Your task to perform on an android device: Open calendar and show me the third week of next month Image 0: 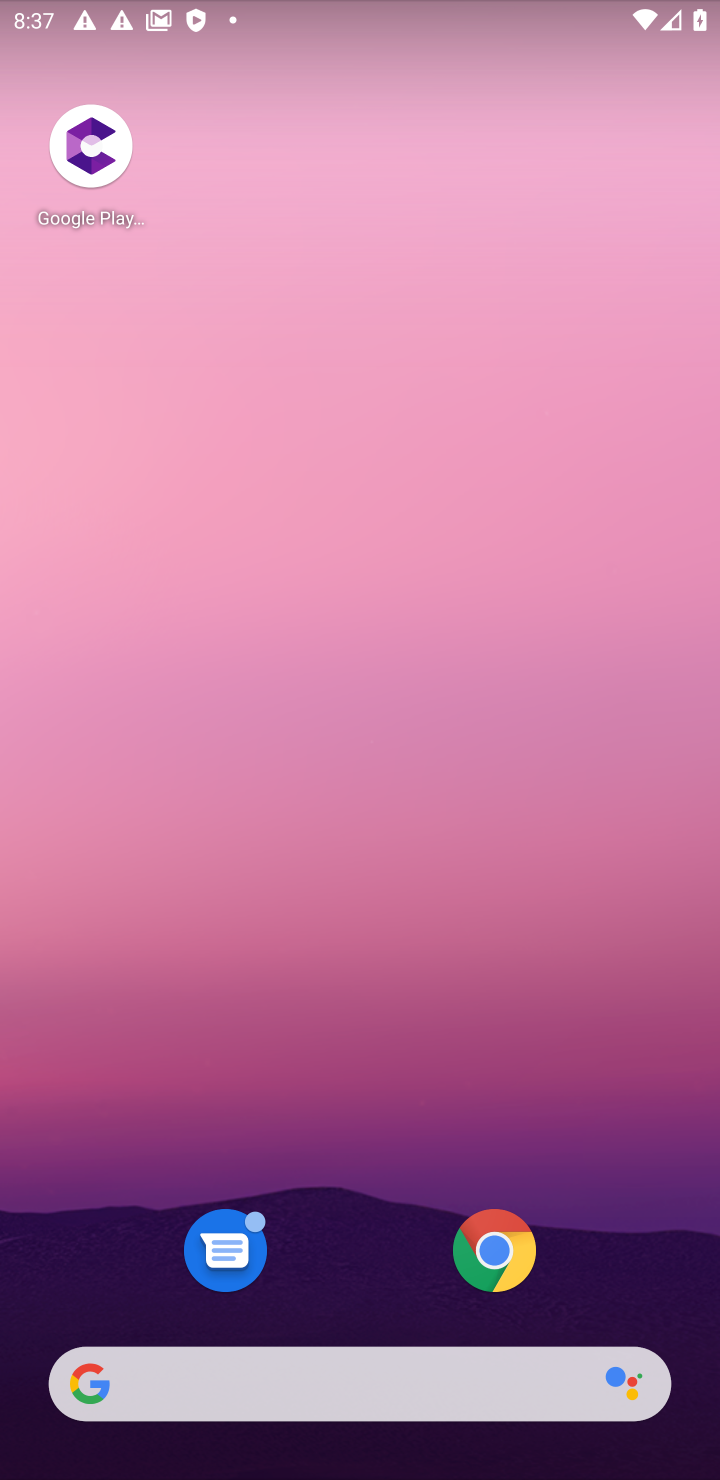
Step 0: drag from (288, 1269) to (228, 850)
Your task to perform on an android device: Open calendar and show me the third week of next month Image 1: 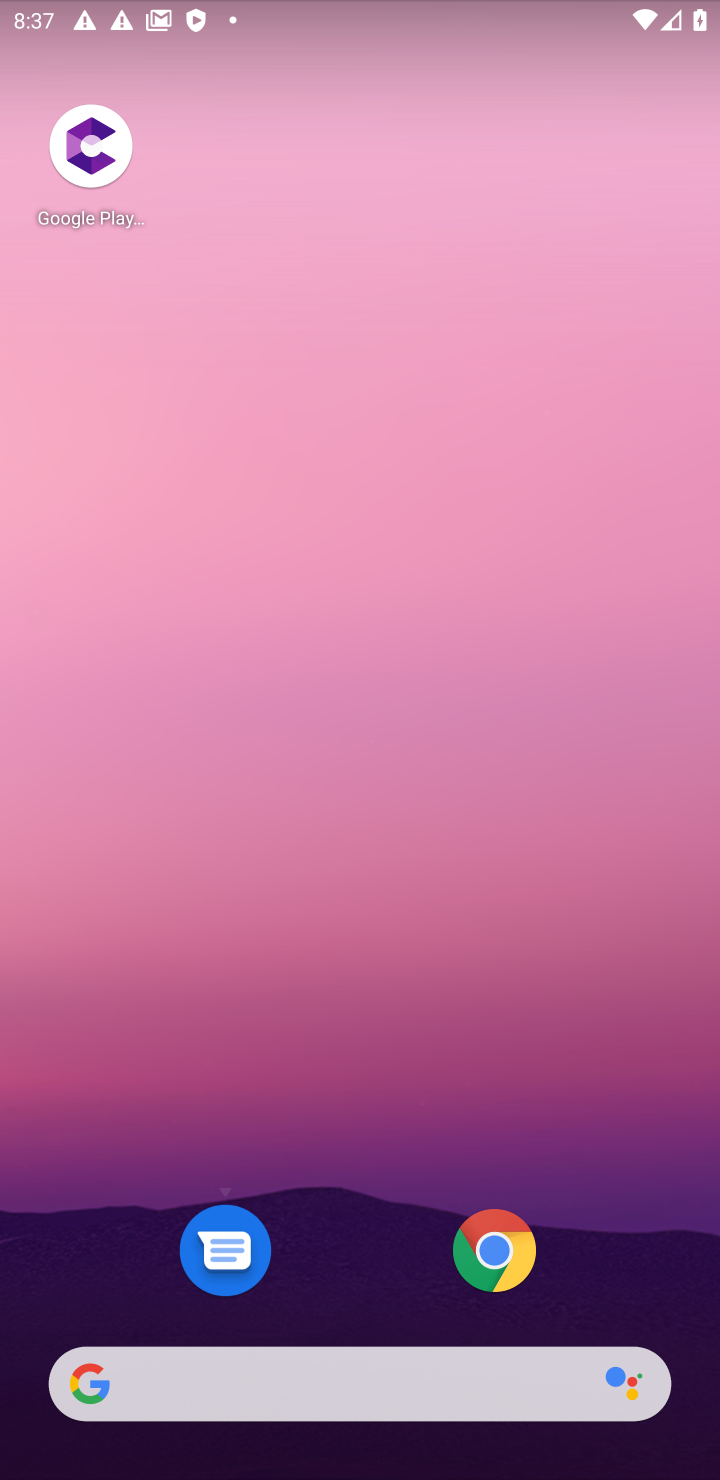
Step 1: click (358, 637)
Your task to perform on an android device: Open calendar and show me the third week of next month Image 2: 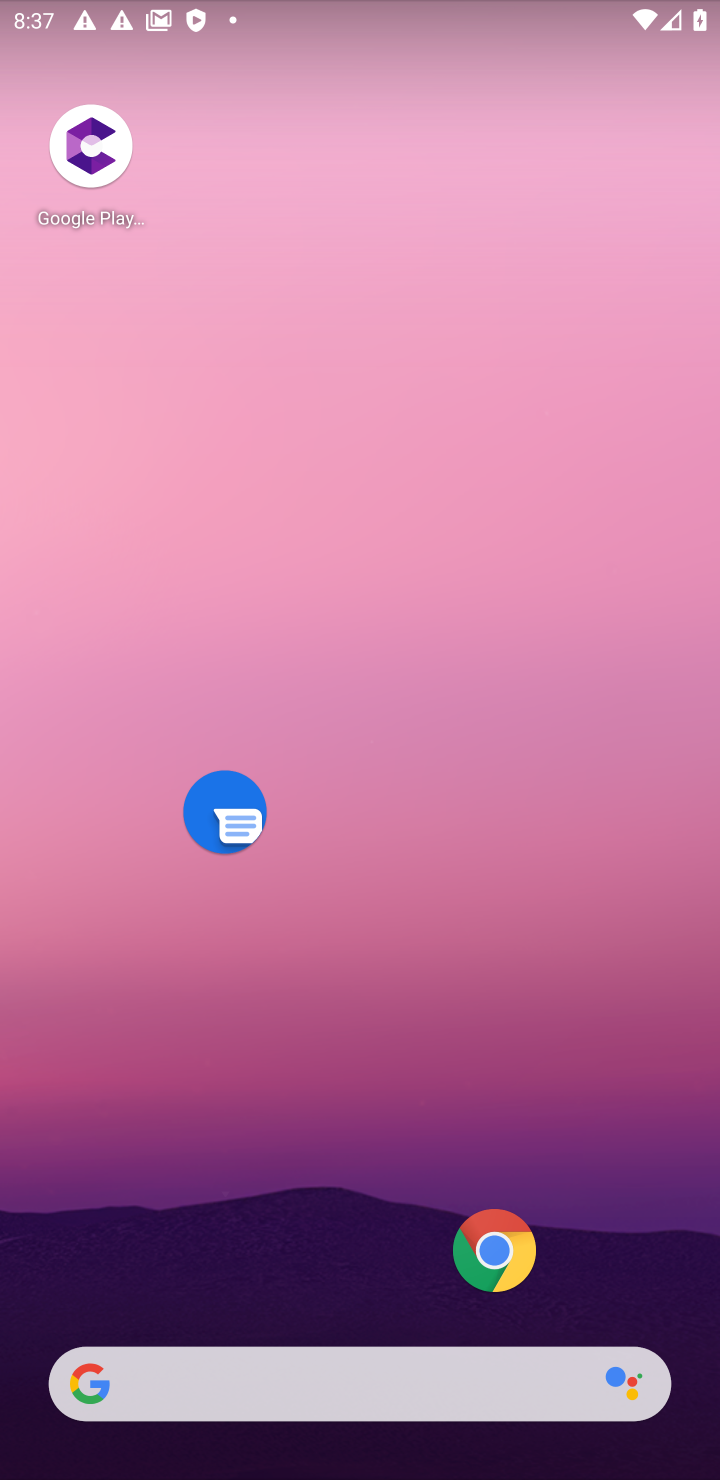
Step 2: click (348, 738)
Your task to perform on an android device: Open calendar and show me the third week of next month Image 3: 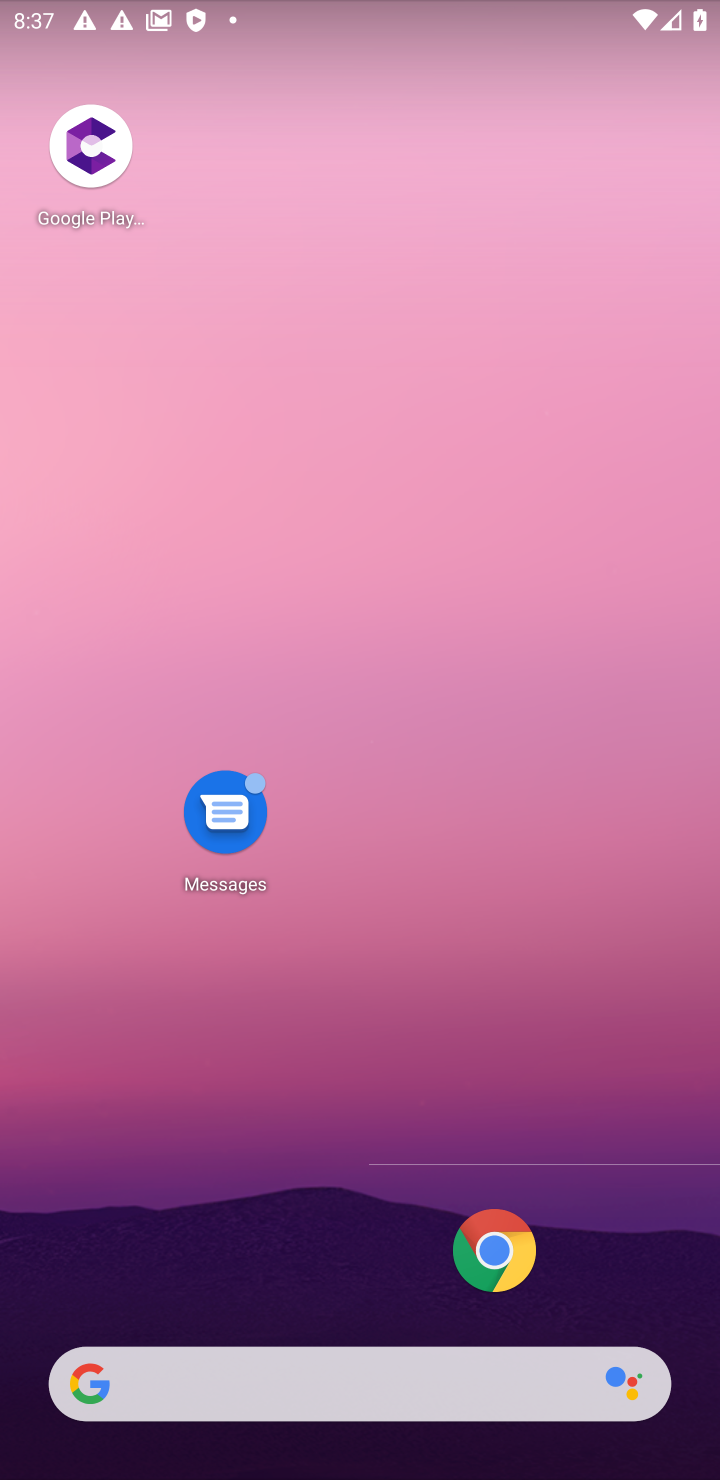
Step 3: click (332, 797)
Your task to perform on an android device: Open calendar and show me the third week of next month Image 4: 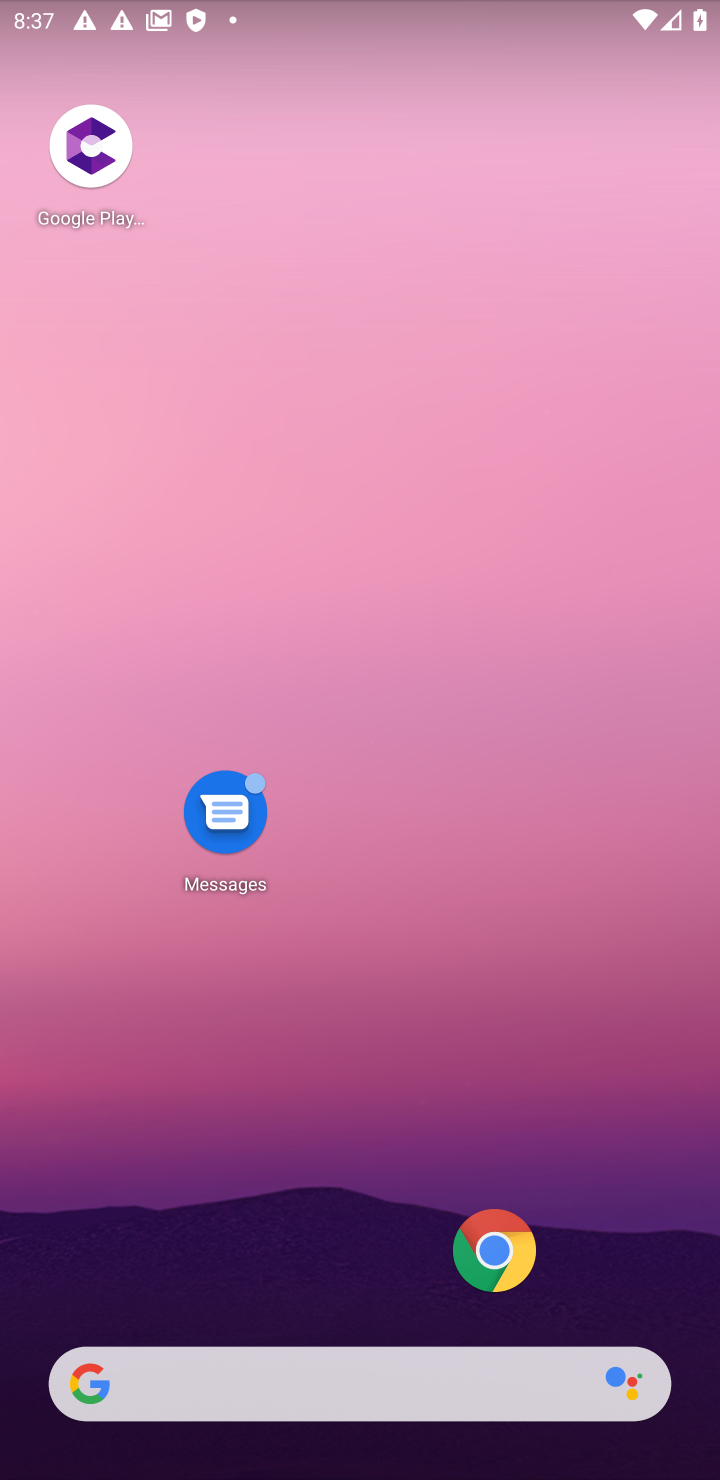
Step 4: click (209, 677)
Your task to perform on an android device: Open calendar and show me the third week of next month Image 5: 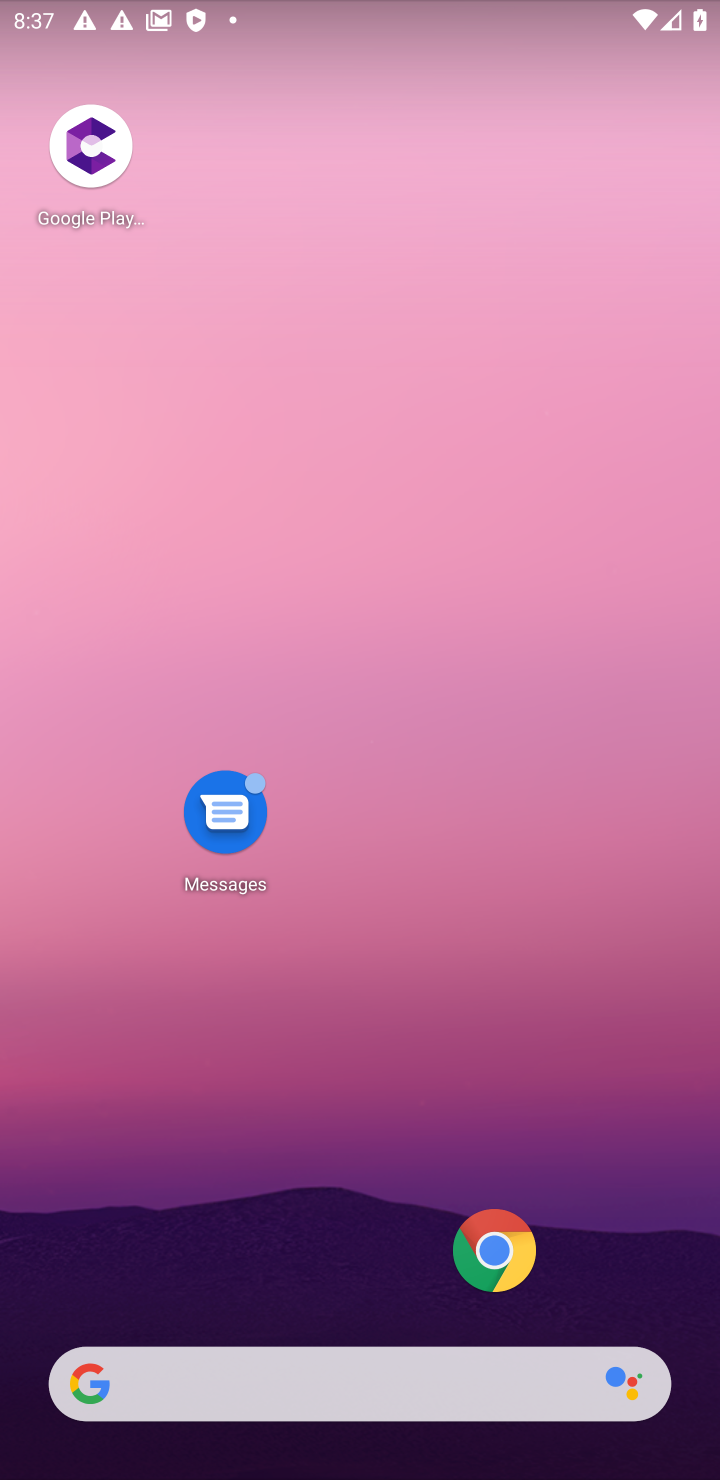
Step 5: drag from (303, 720) to (237, 667)
Your task to perform on an android device: Open calendar and show me the third week of next month Image 6: 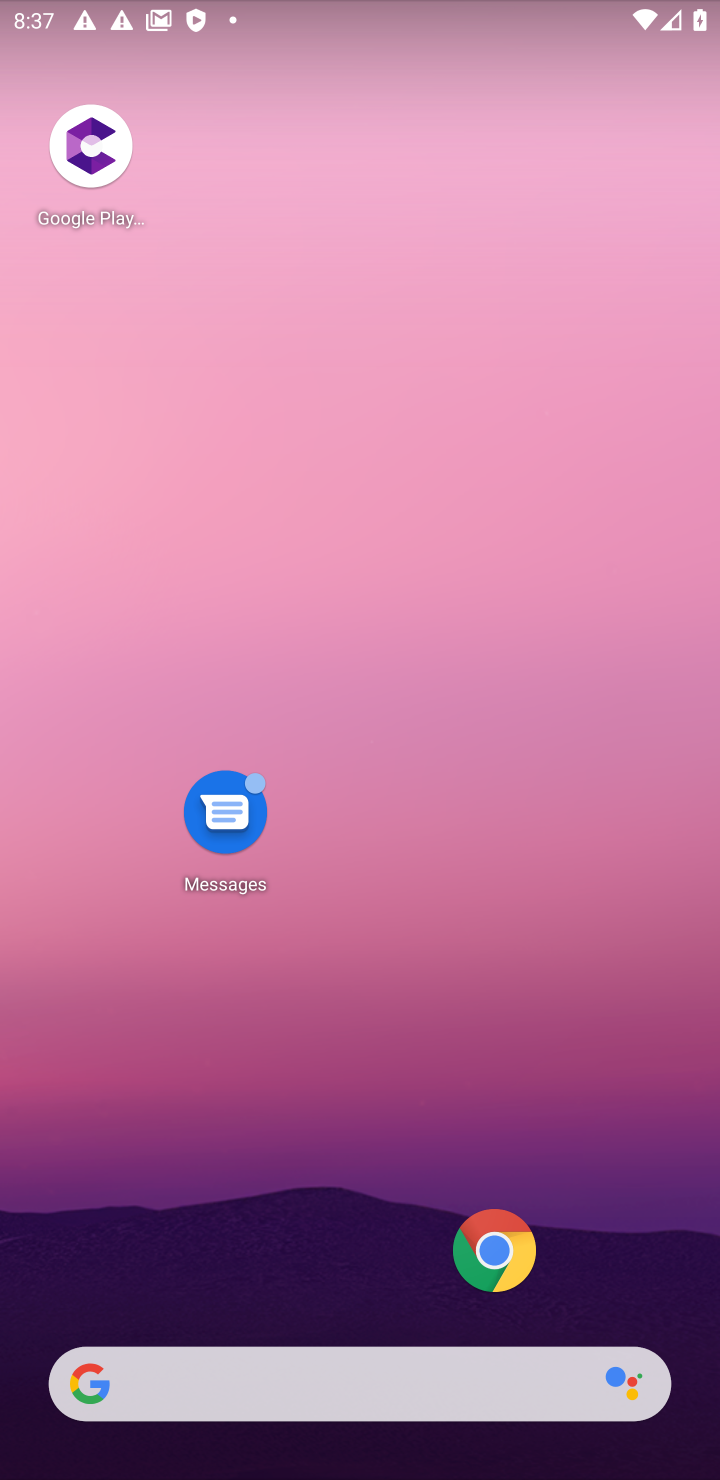
Step 6: click (224, 322)
Your task to perform on an android device: Open calendar and show me the third week of next month Image 7: 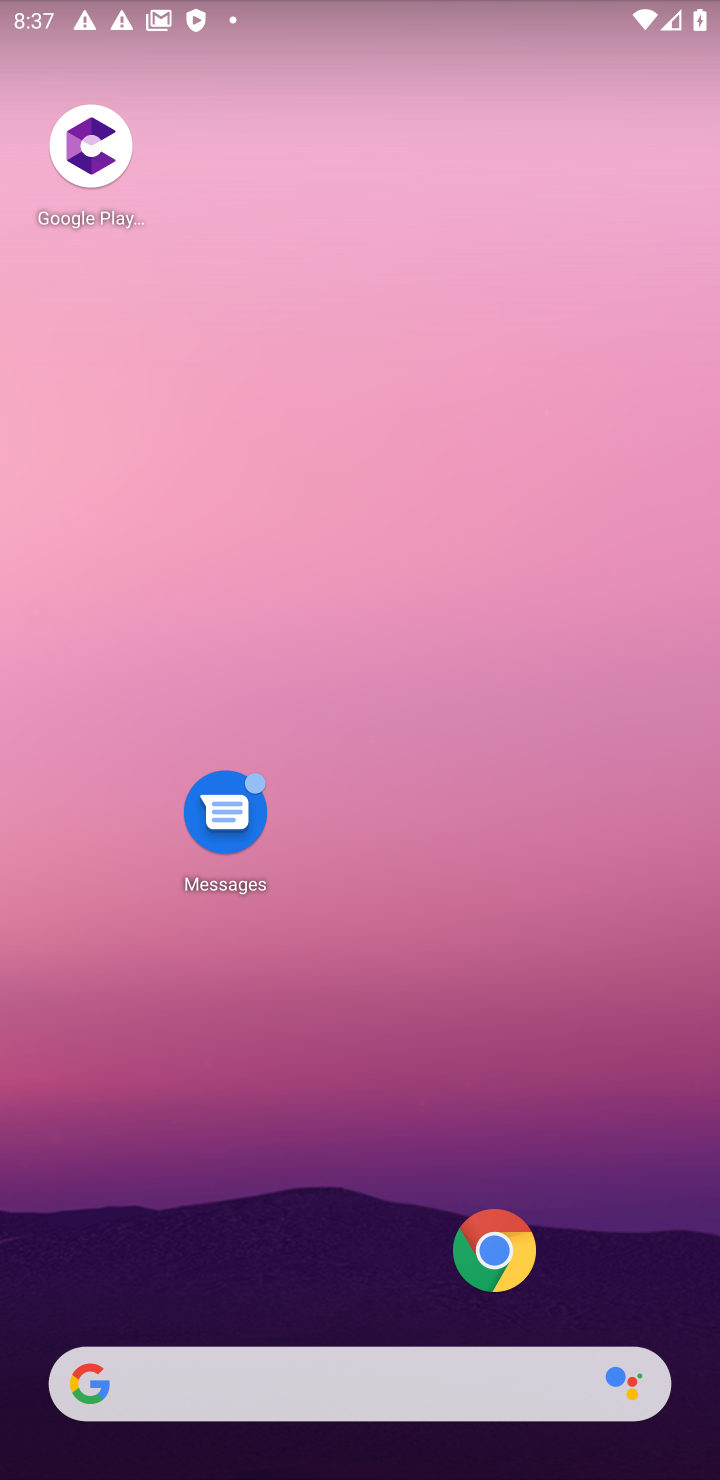
Step 7: drag from (404, 962) to (363, 514)
Your task to perform on an android device: Open calendar and show me the third week of next month Image 8: 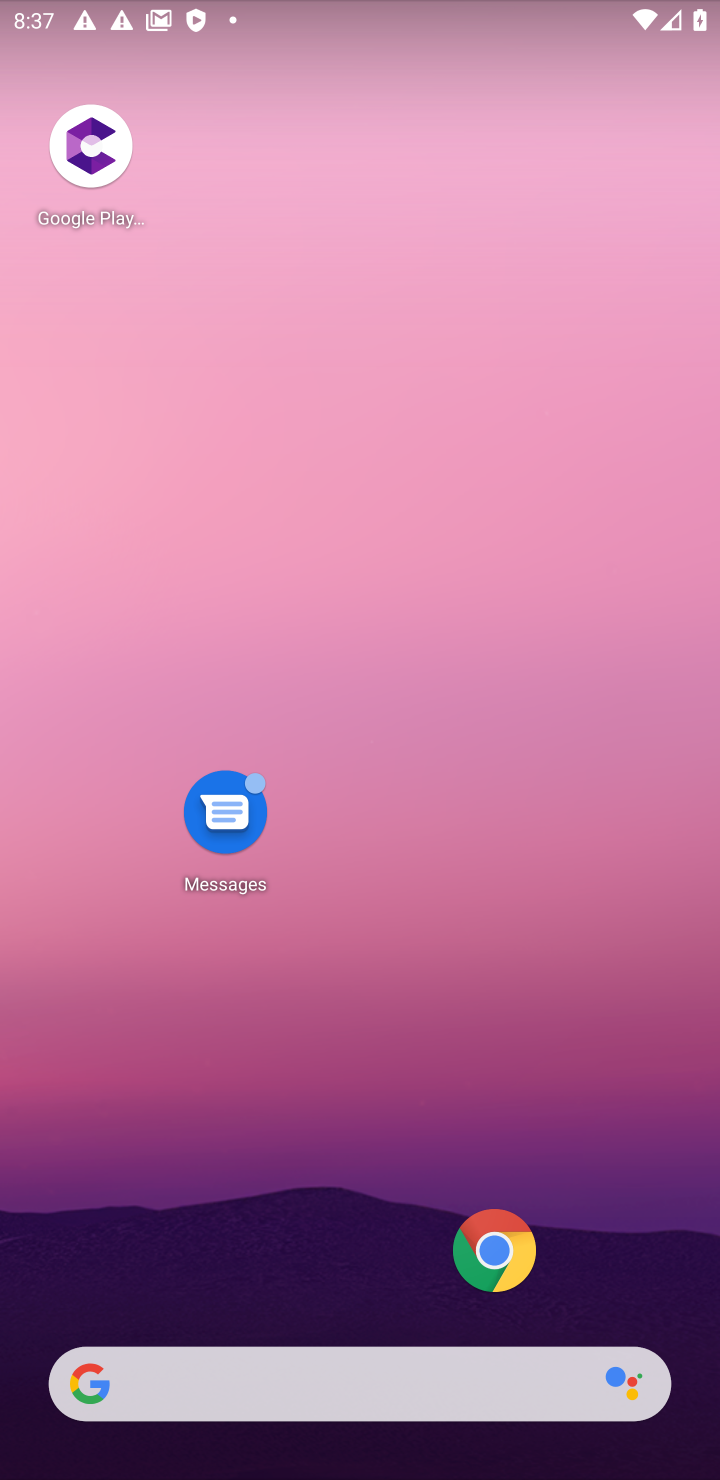
Step 8: drag from (309, 1232) to (237, 384)
Your task to perform on an android device: Open calendar and show me the third week of next month Image 9: 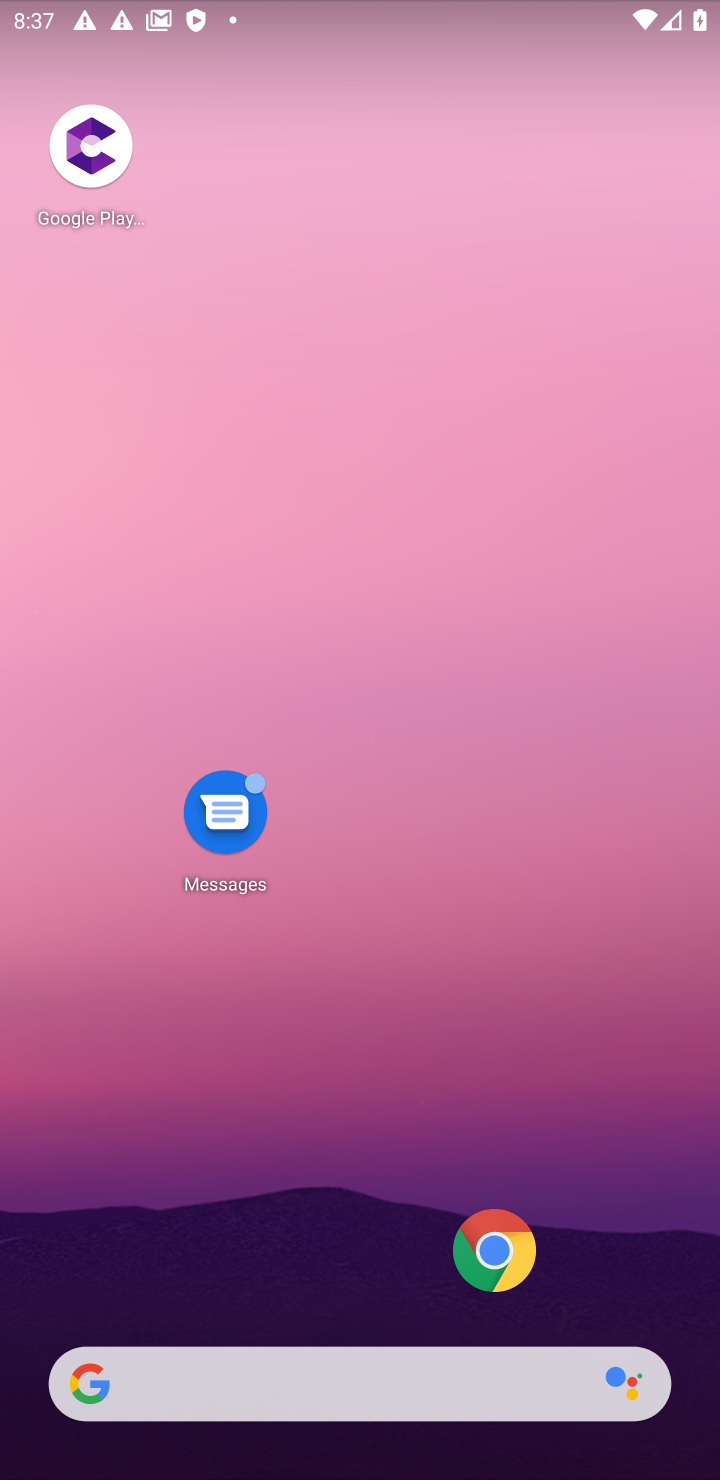
Step 9: drag from (267, 395) to (271, 755)
Your task to perform on an android device: Open calendar and show me the third week of next month Image 10: 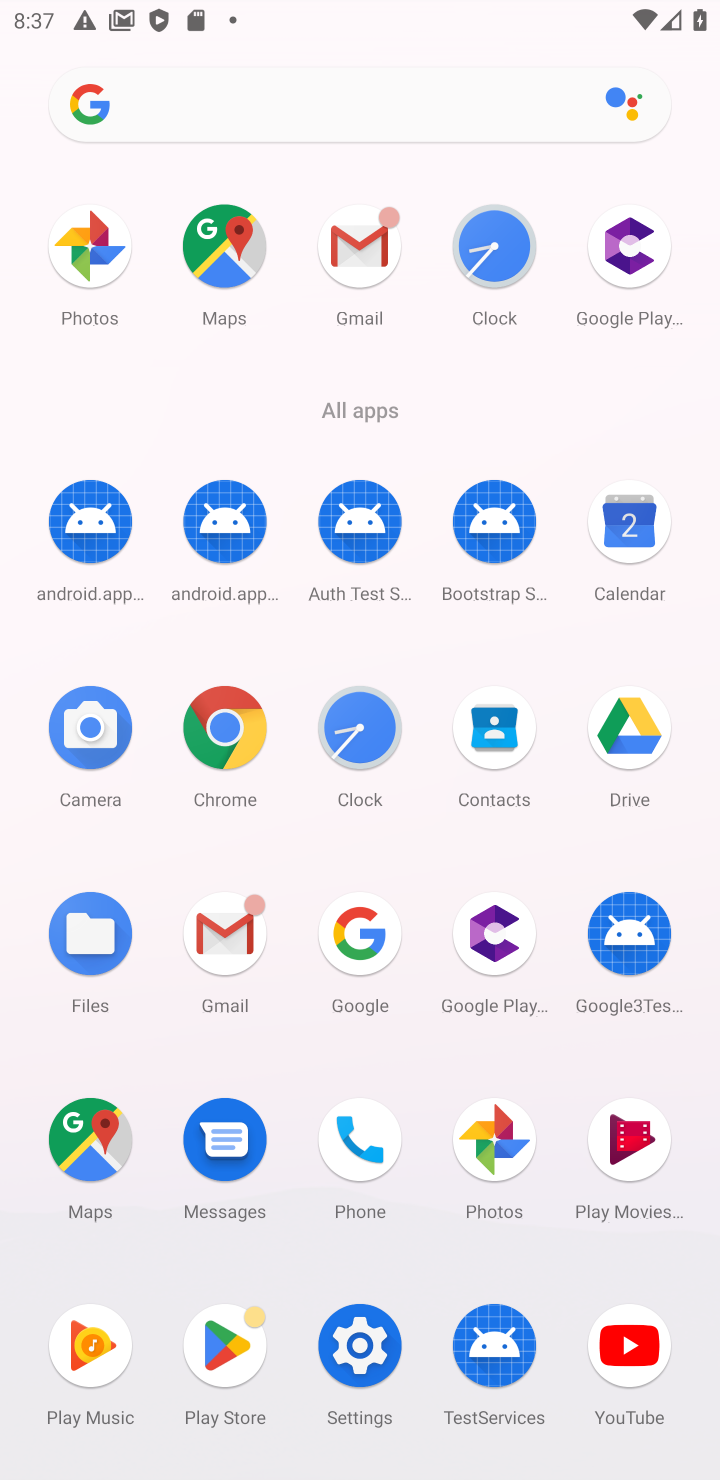
Step 10: click (242, 1331)
Your task to perform on an android device: Open calendar and show me the third week of next month Image 11: 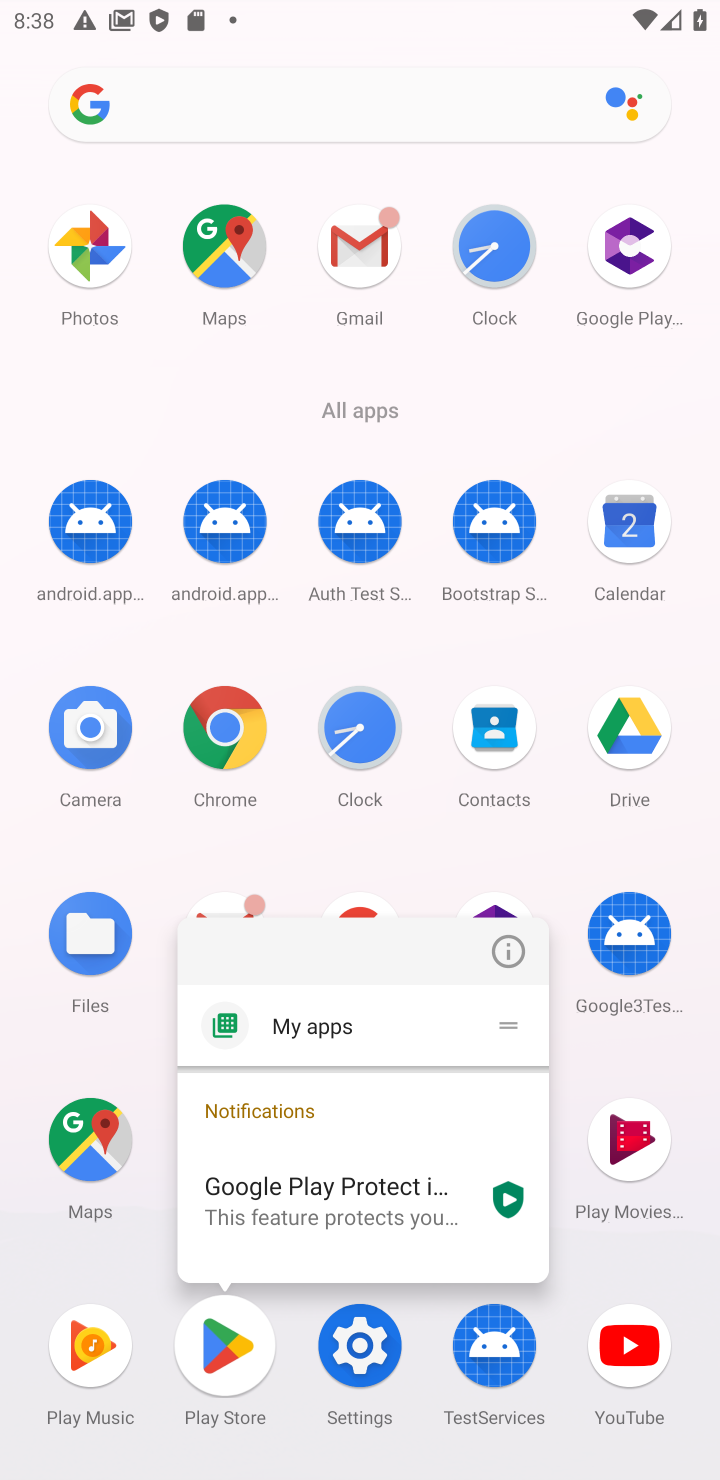
Step 11: click (247, 1331)
Your task to perform on an android device: Open calendar and show me the third week of next month Image 12: 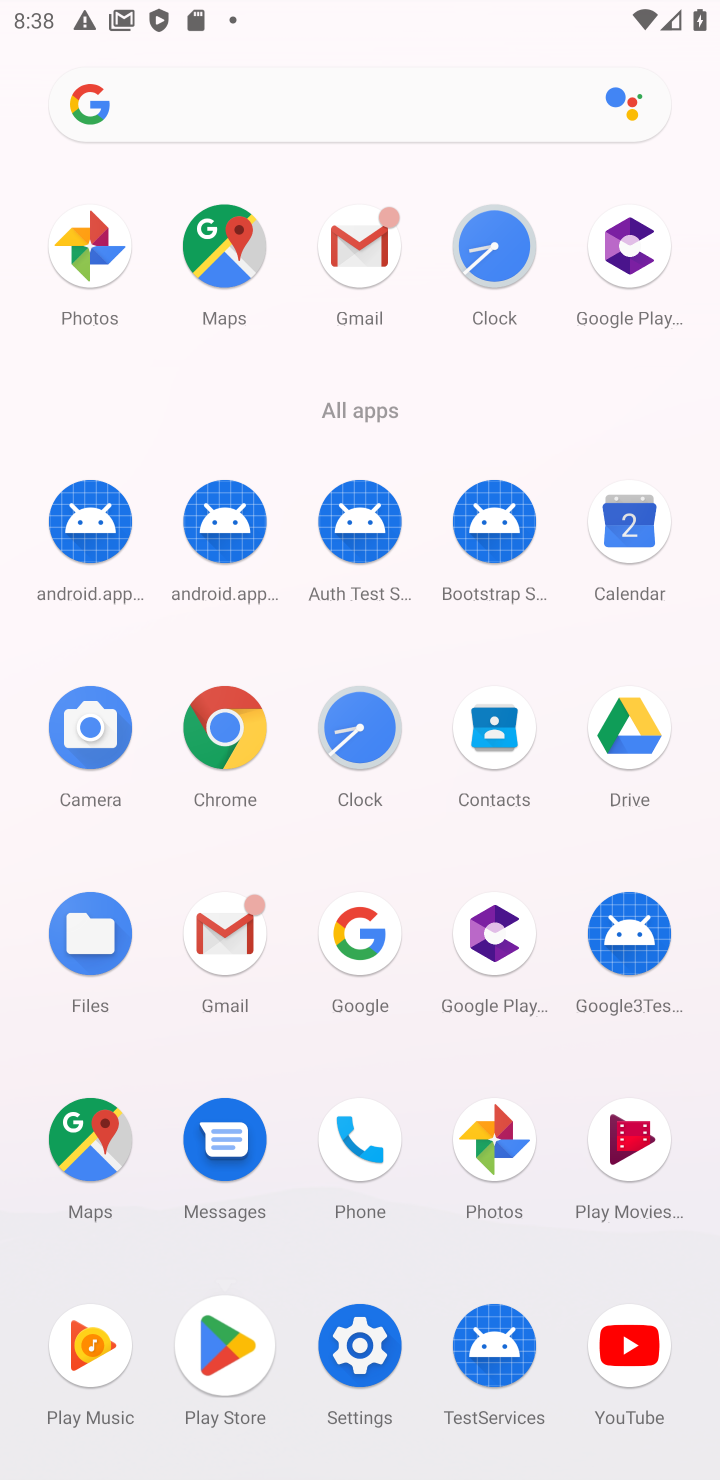
Step 12: click (244, 1324)
Your task to perform on an android device: Open calendar and show me the third week of next month Image 13: 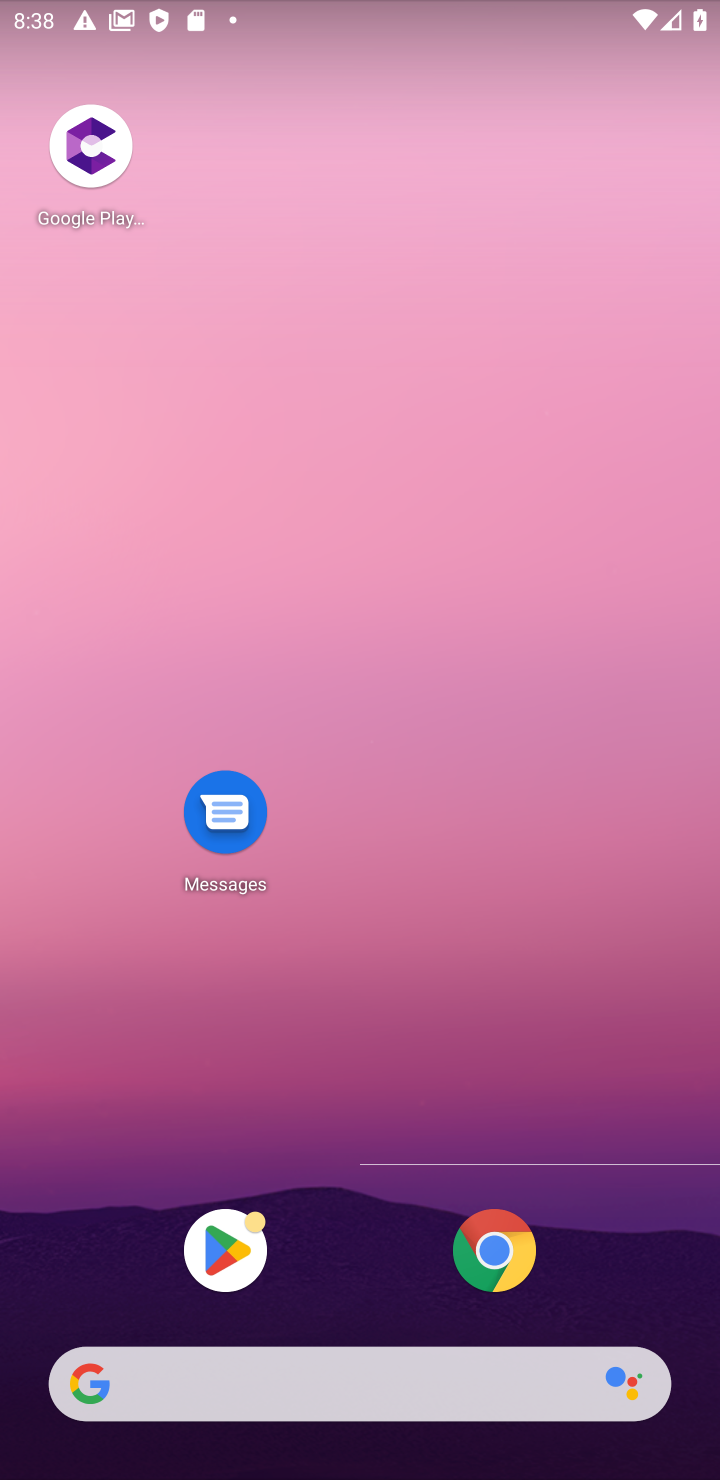
Step 13: click (219, 1252)
Your task to perform on an android device: Open calendar and show me the third week of next month Image 14: 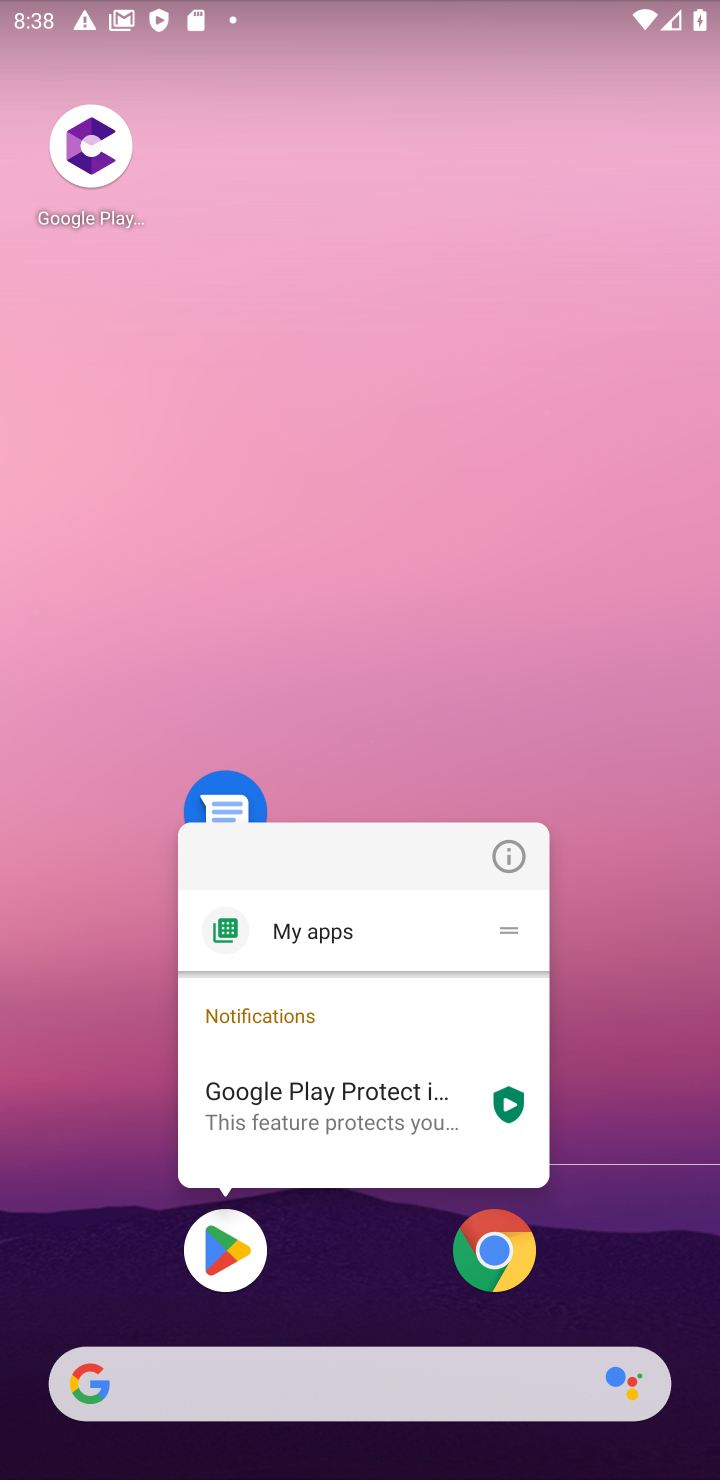
Step 14: click (342, 914)
Your task to perform on an android device: Open calendar and show me the third week of next month Image 15: 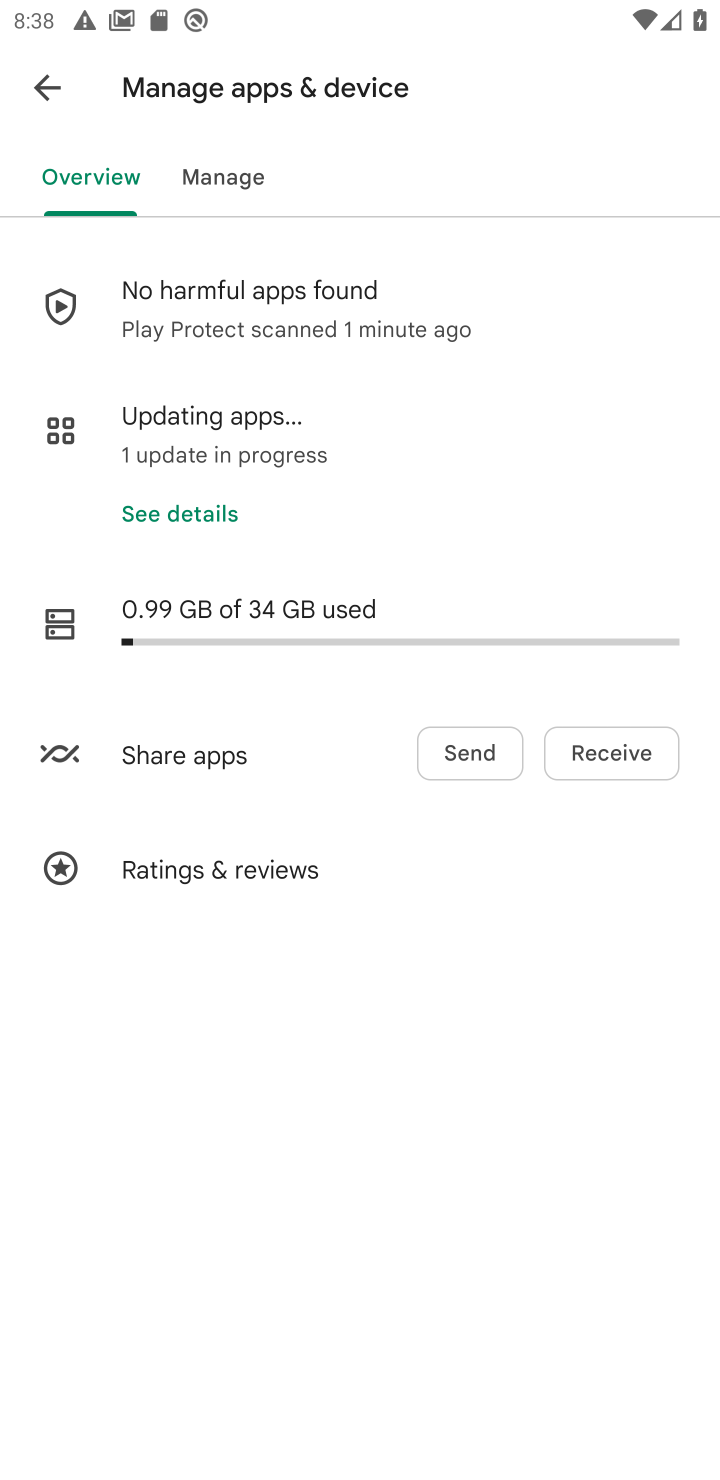
Step 15: click (39, 71)
Your task to perform on an android device: Open calendar and show me the third week of next month Image 16: 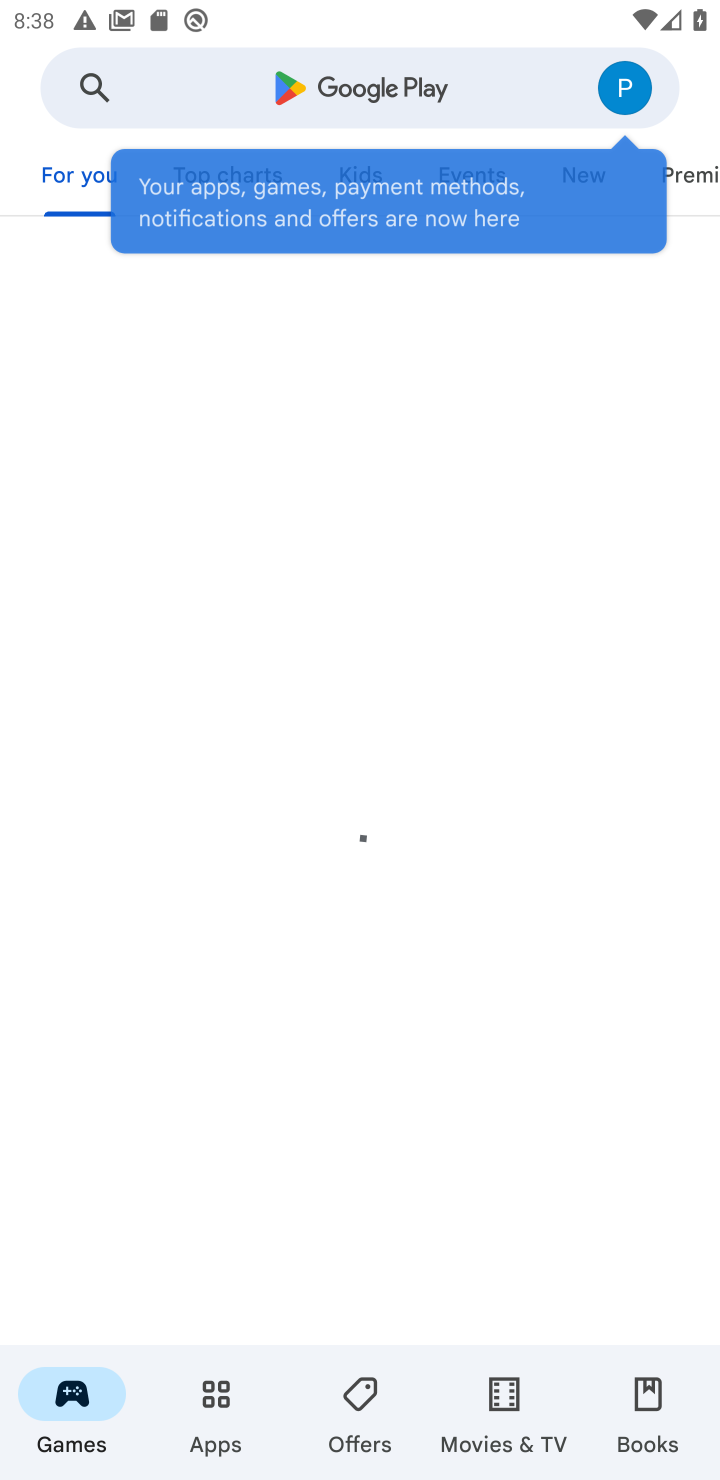
Step 16: click (432, 84)
Your task to perform on an android device: Open calendar and show me the third week of next month Image 17: 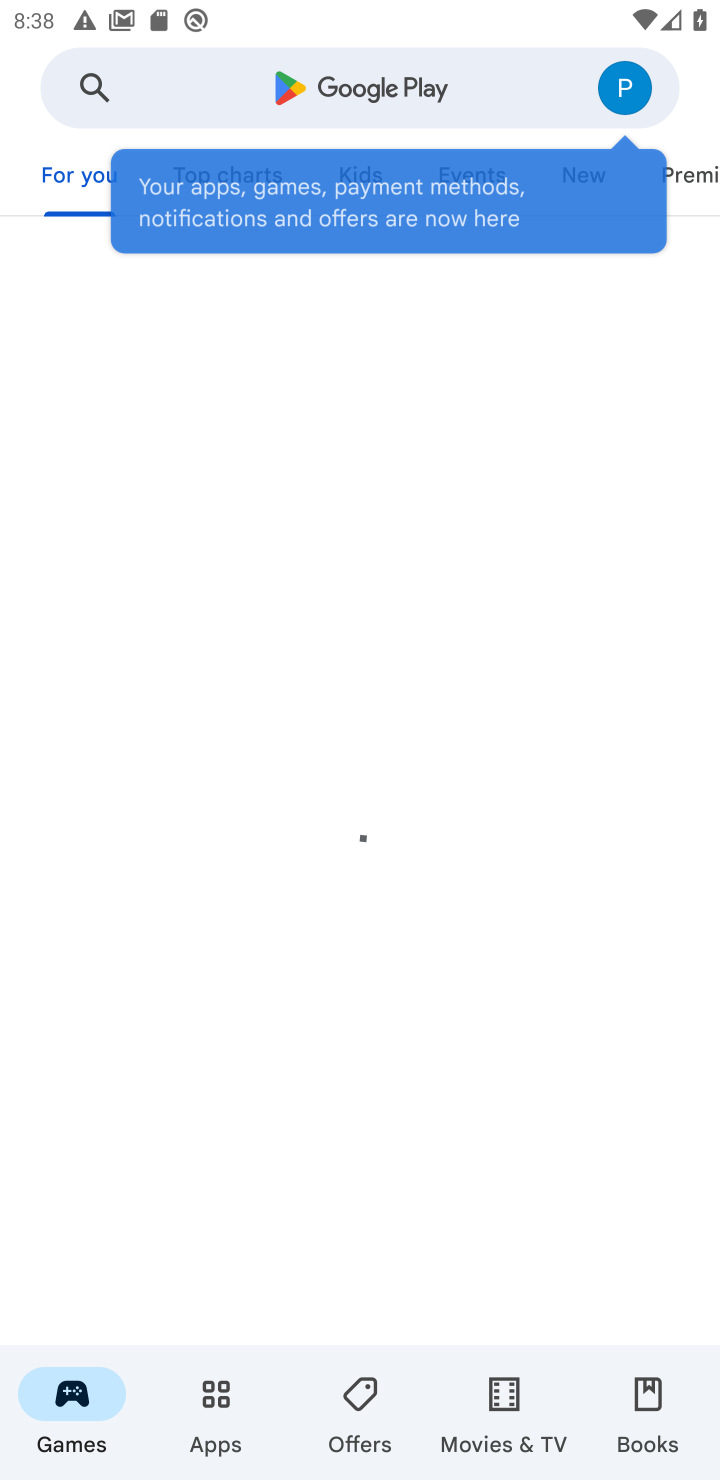
Step 17: click (432, 84)
Your task to perform on an android device: Open calendar and show me the third week of next month Image 18: 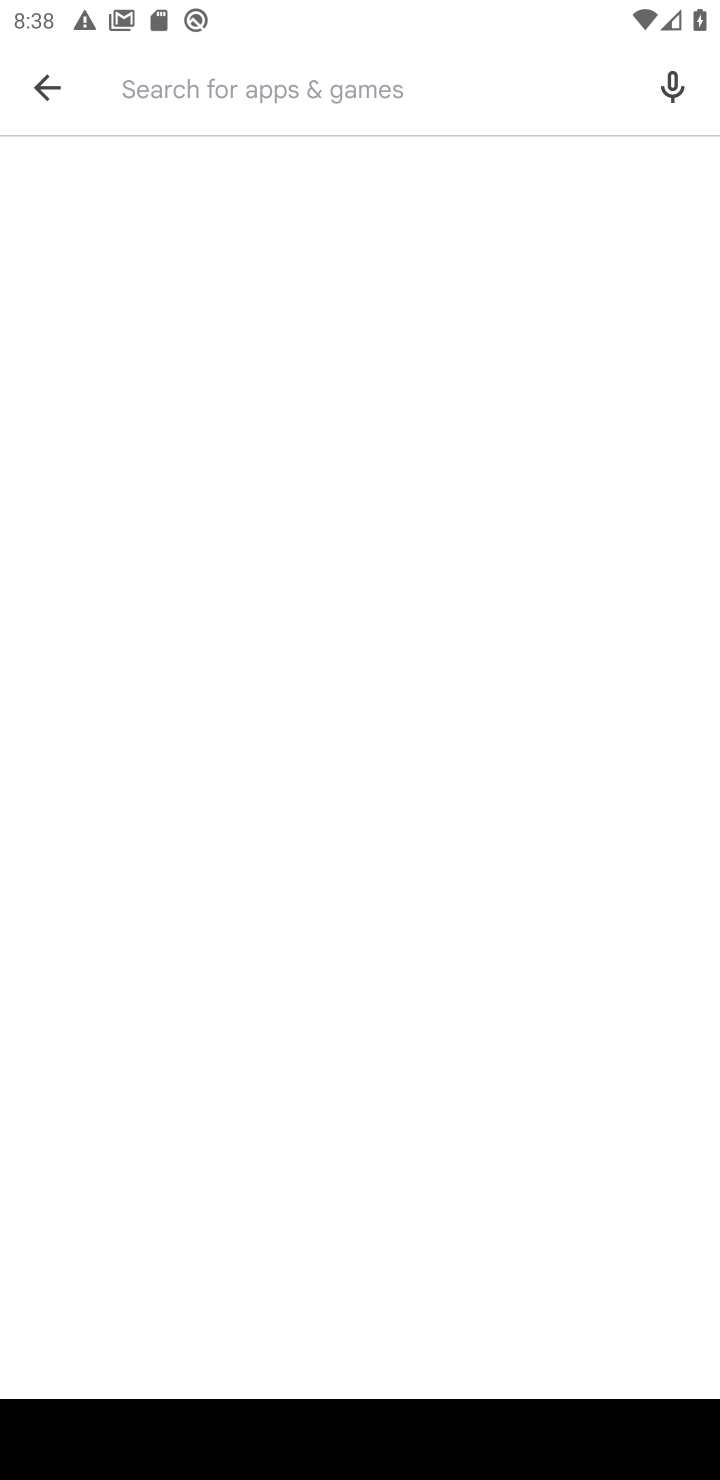
Step 18: type "calender"
Your task to perform on an android device: Open calendar and show me the third week of next month Image 19: 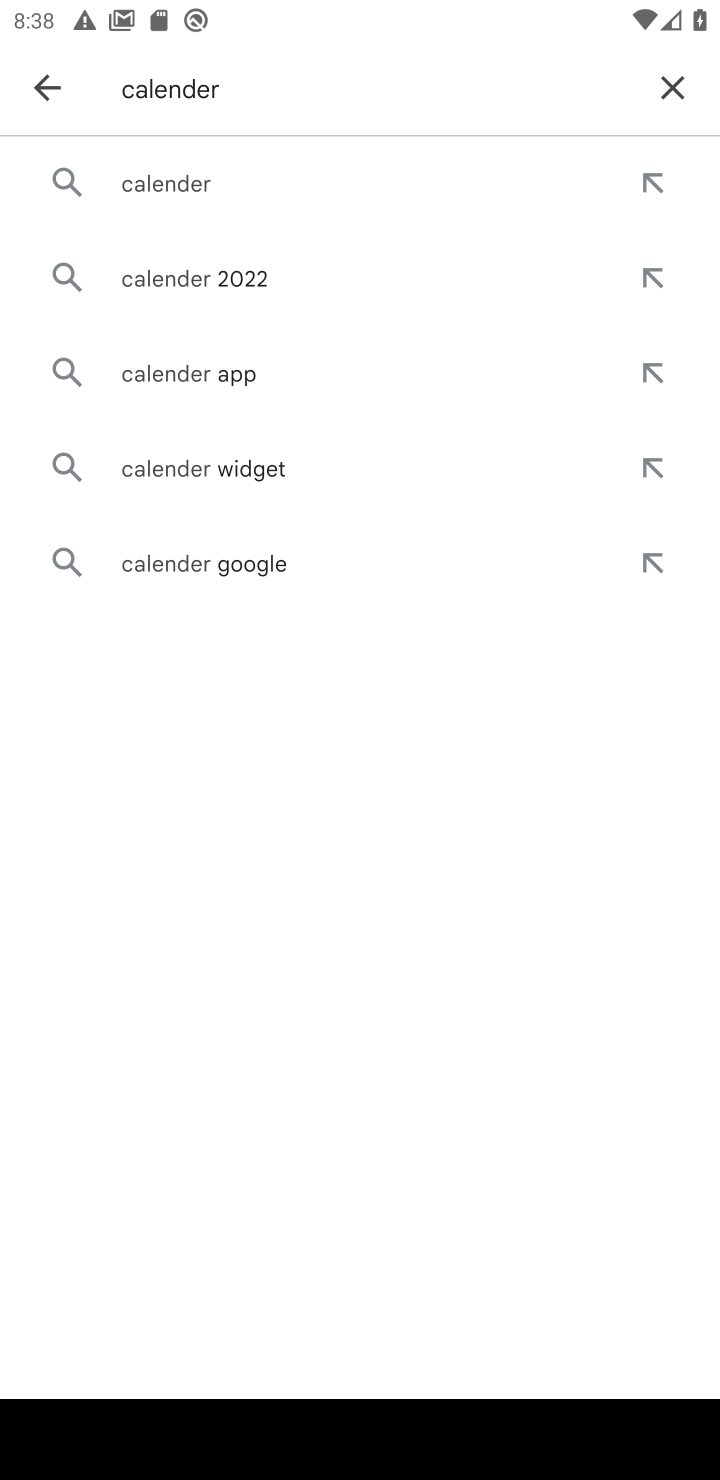
Step 19: click (196, 184)
Your task to perform on an android device: Open calendar and show me the third week of next month Image 20: 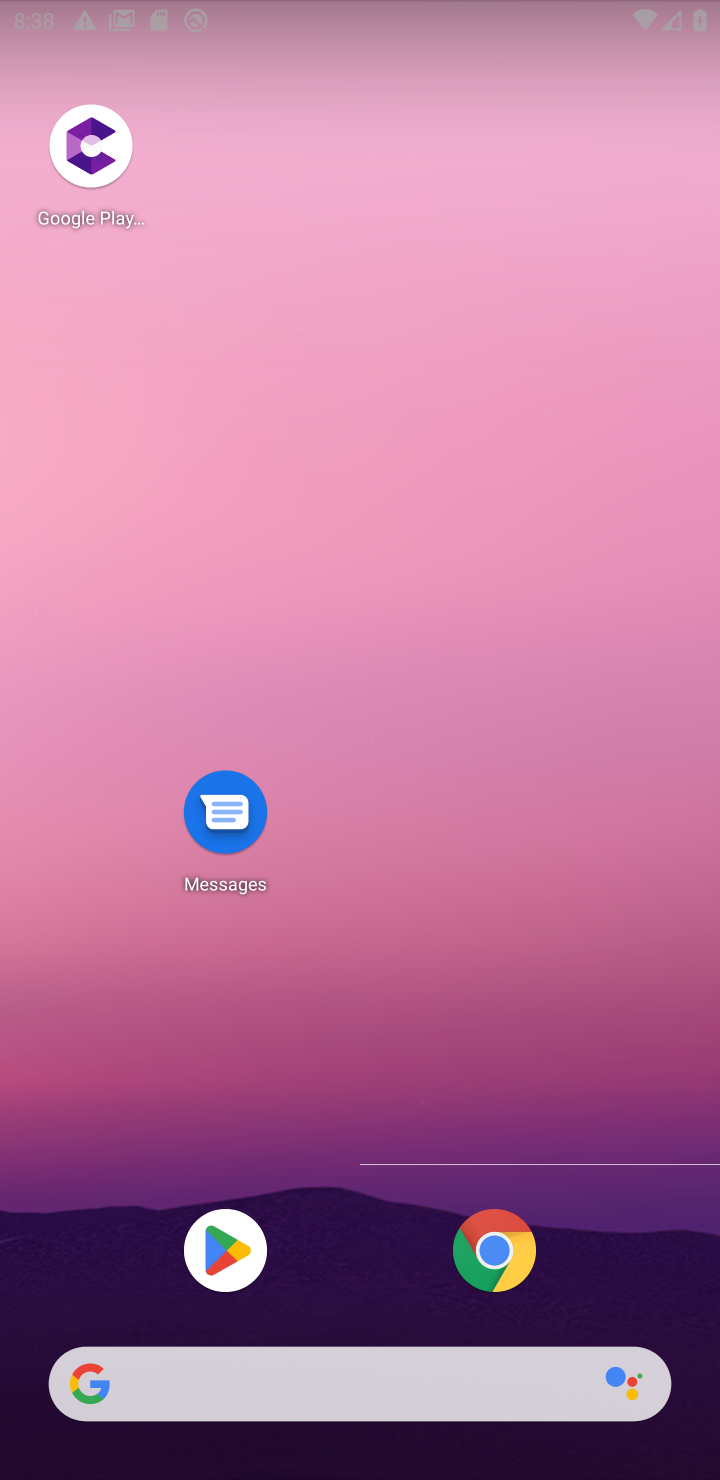
Step 20: drag from (317, 1264) to (257, 234)
Your task to perform on an android device: Open calendar and show me the third week of next month Image 21: 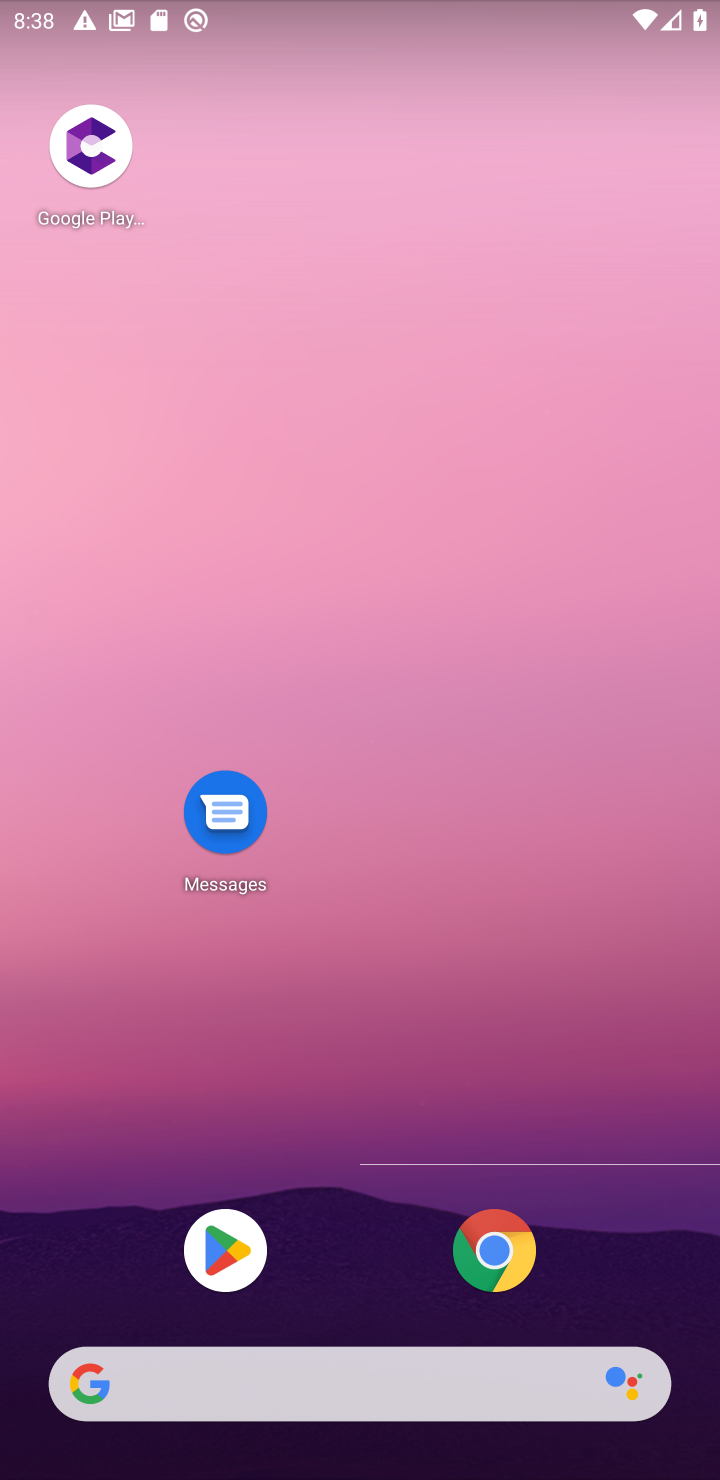
Step 21: drag from (258, 916) to (176, 78)
Your task to perform on an android device: Open calendar and show me the third week of next month Image 22: 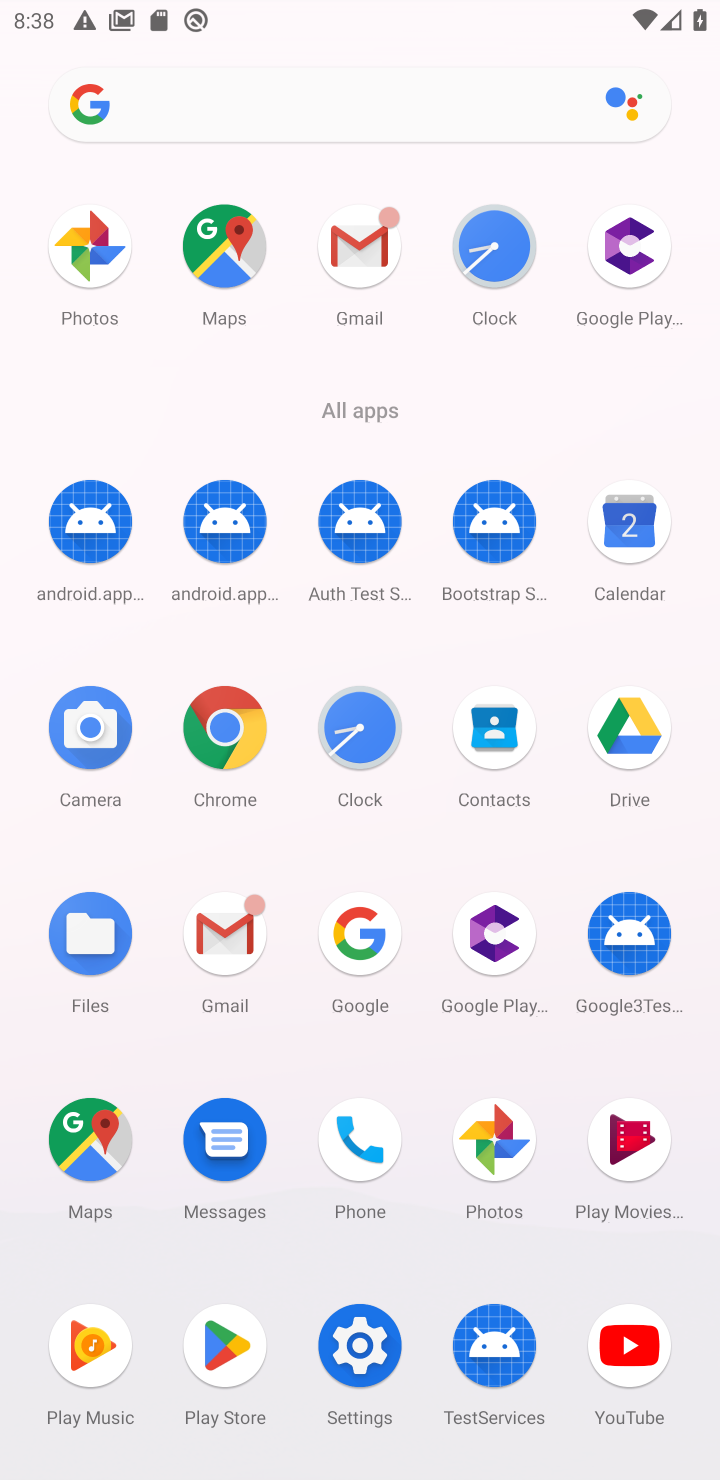
Step 22: click (634, 537)
Your task to perform on an android device: Open calendar and show me the third week of next month Image 23: 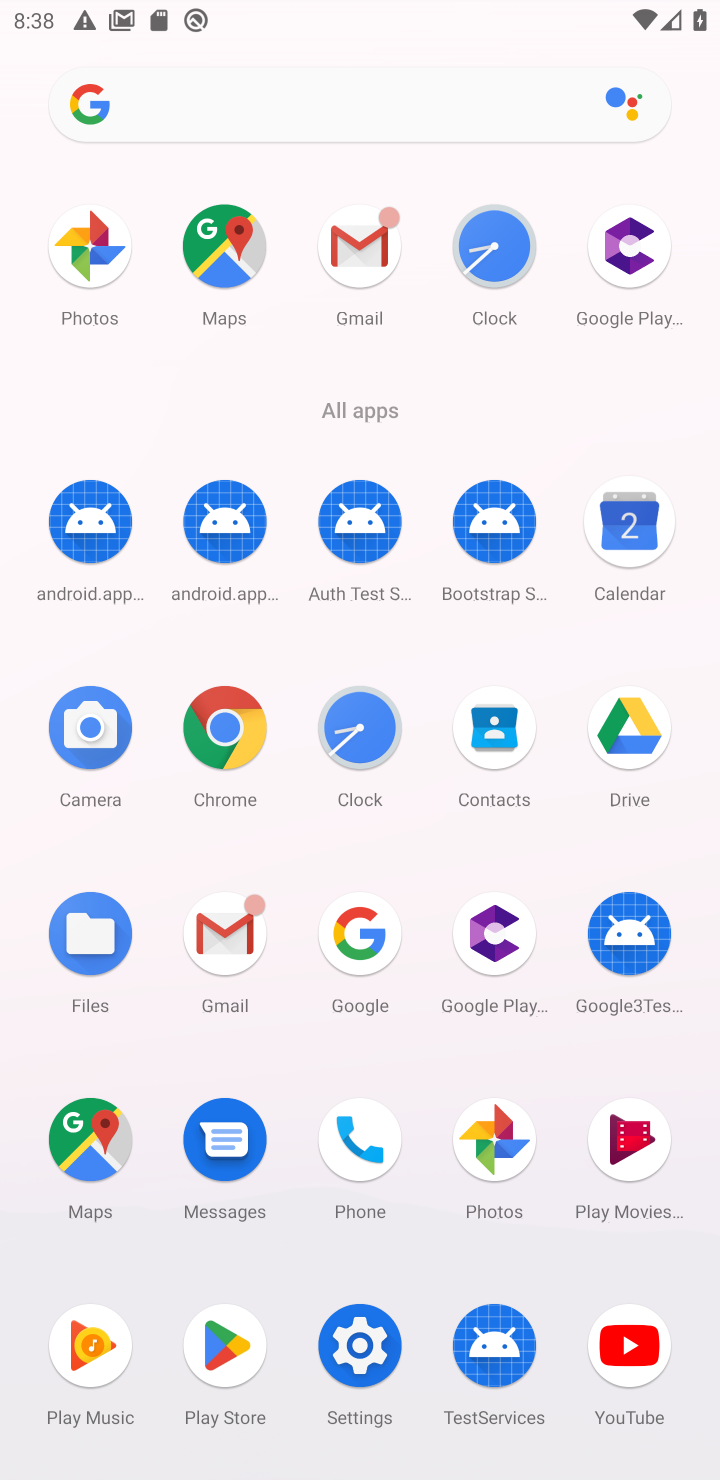
Step 23: click (634, 523)
Your task to perform on an android device: Open calendar and show me the third week of next month Image 24: 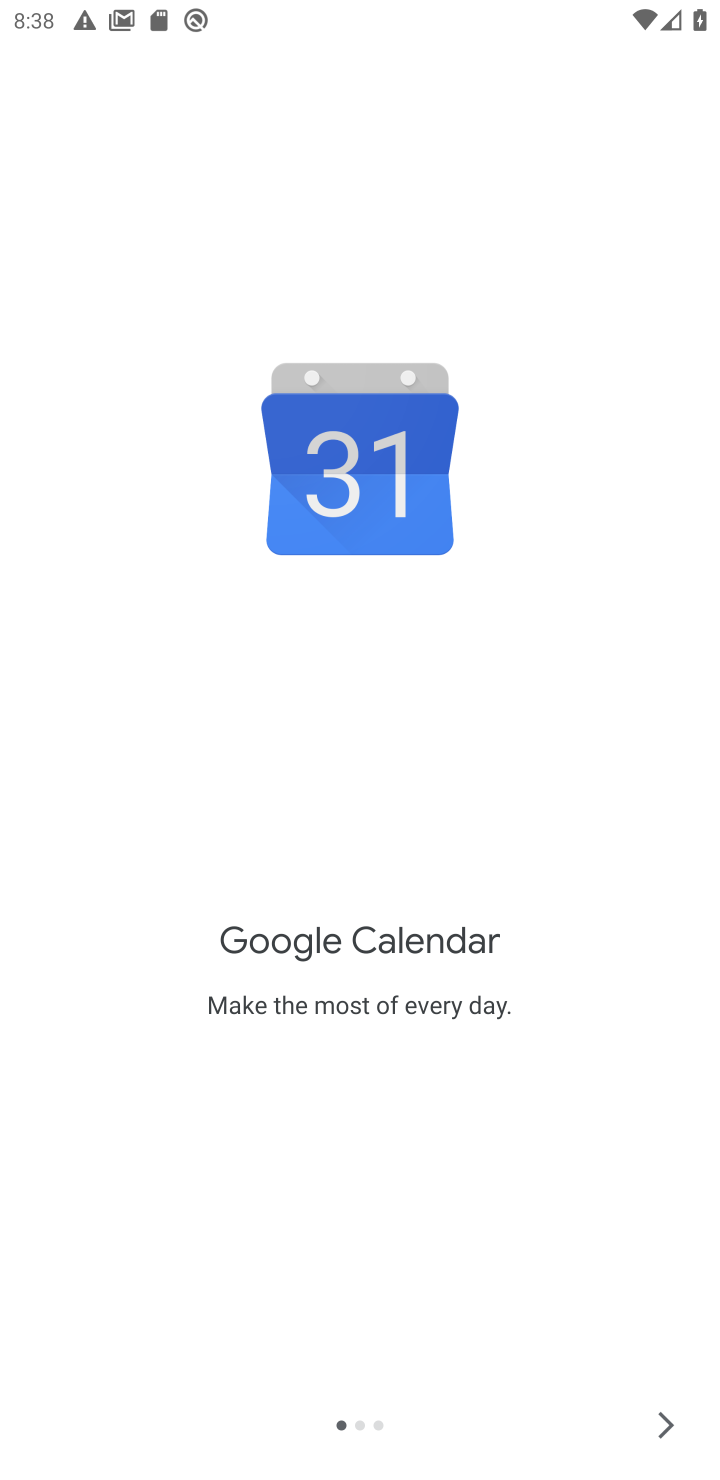
Step 24: click (632, 527)
Your task to perform on an android device: Open calendar and show me the third week of next month Image 25: 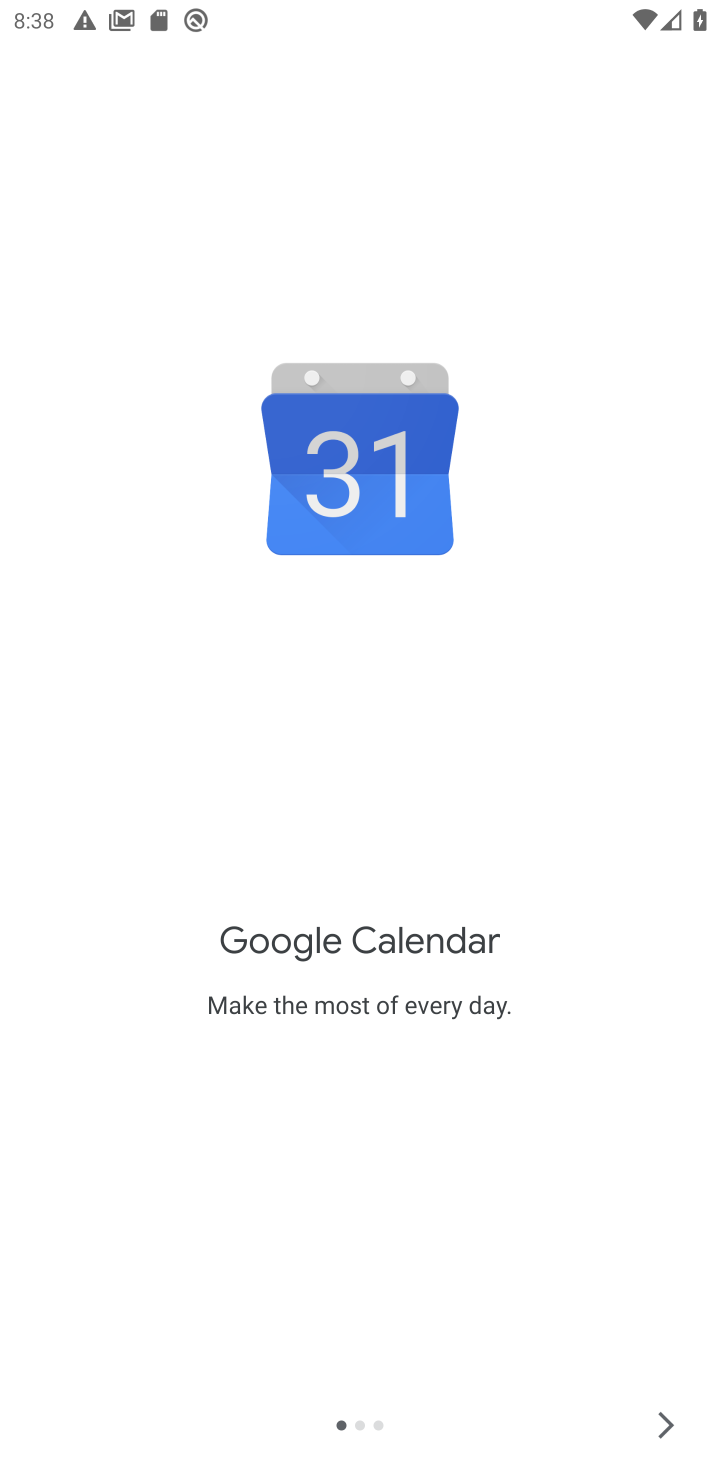
Step 25: click (632, 529)
Your task to perform on an android device: Open calendar and show me the third week of next month Image 26: 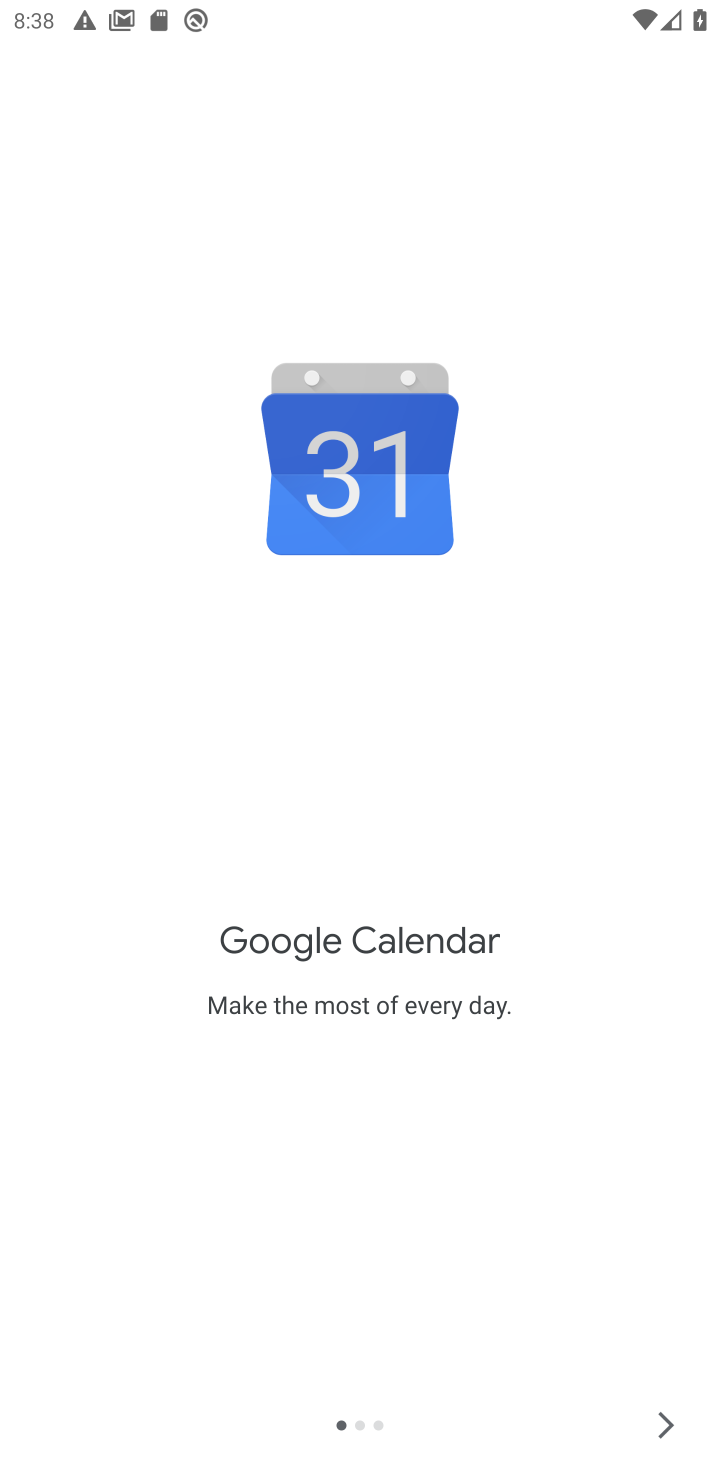
Step 26: click (666, 1418)
Your task to perform on an android device: Open calendar and show me the third week of next month Image 27: 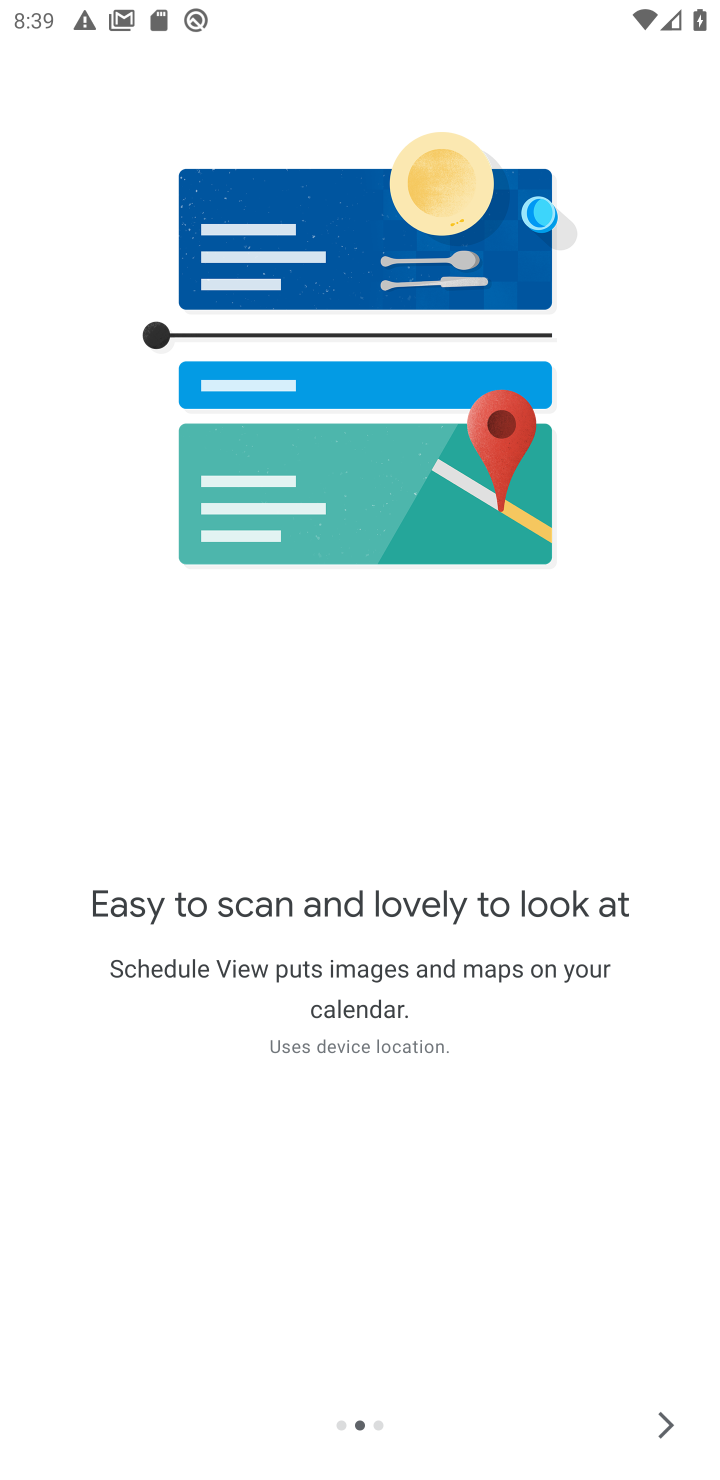
Step 27: click (665, 1419)
Your task to perform on an android device: Open calendar and show me the third week of next month Image 28: 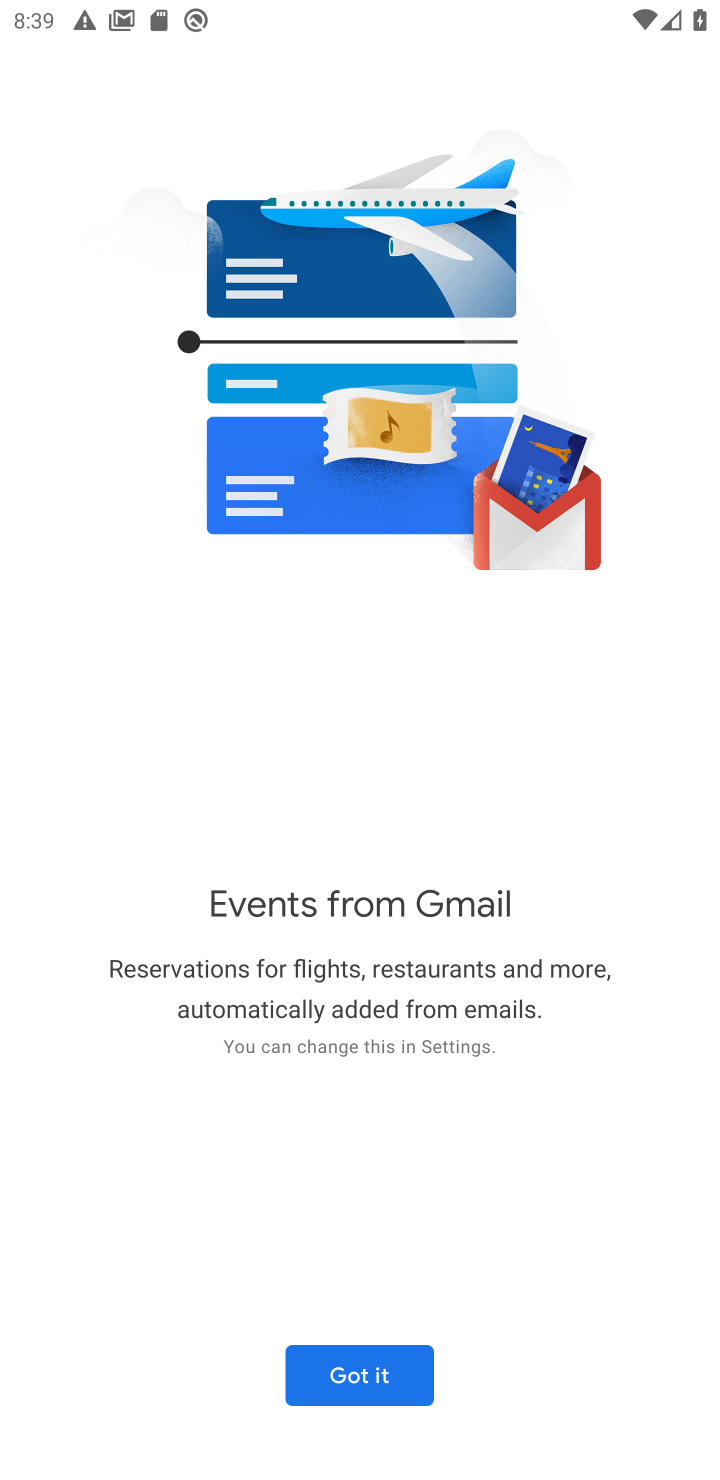
Step 28: click (282, 1372)
Your task to perform on an android device: Open calendar and show me the third week of next month Image 29: 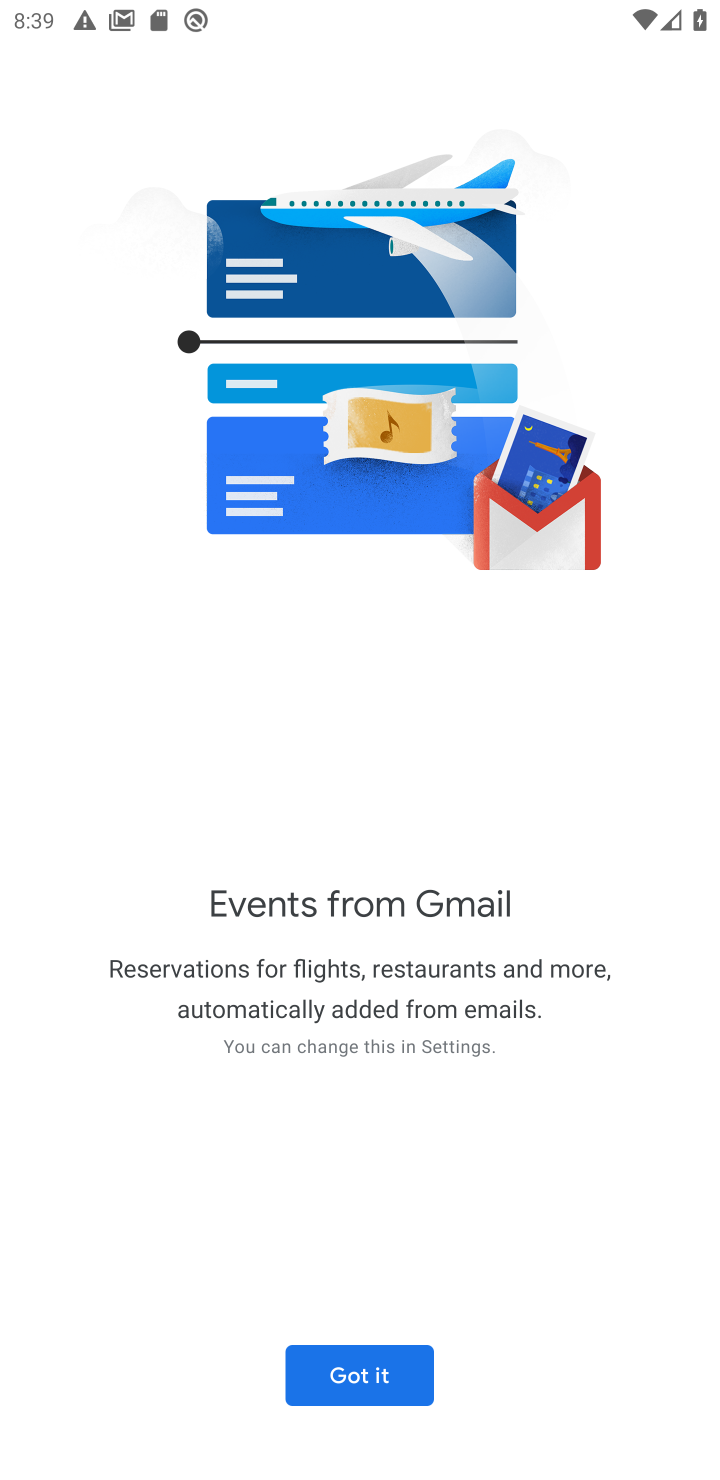
Step 29: click (315, 1365)
Your task to perform on an android device: Open calendar and show me the third week of next month Image 30: 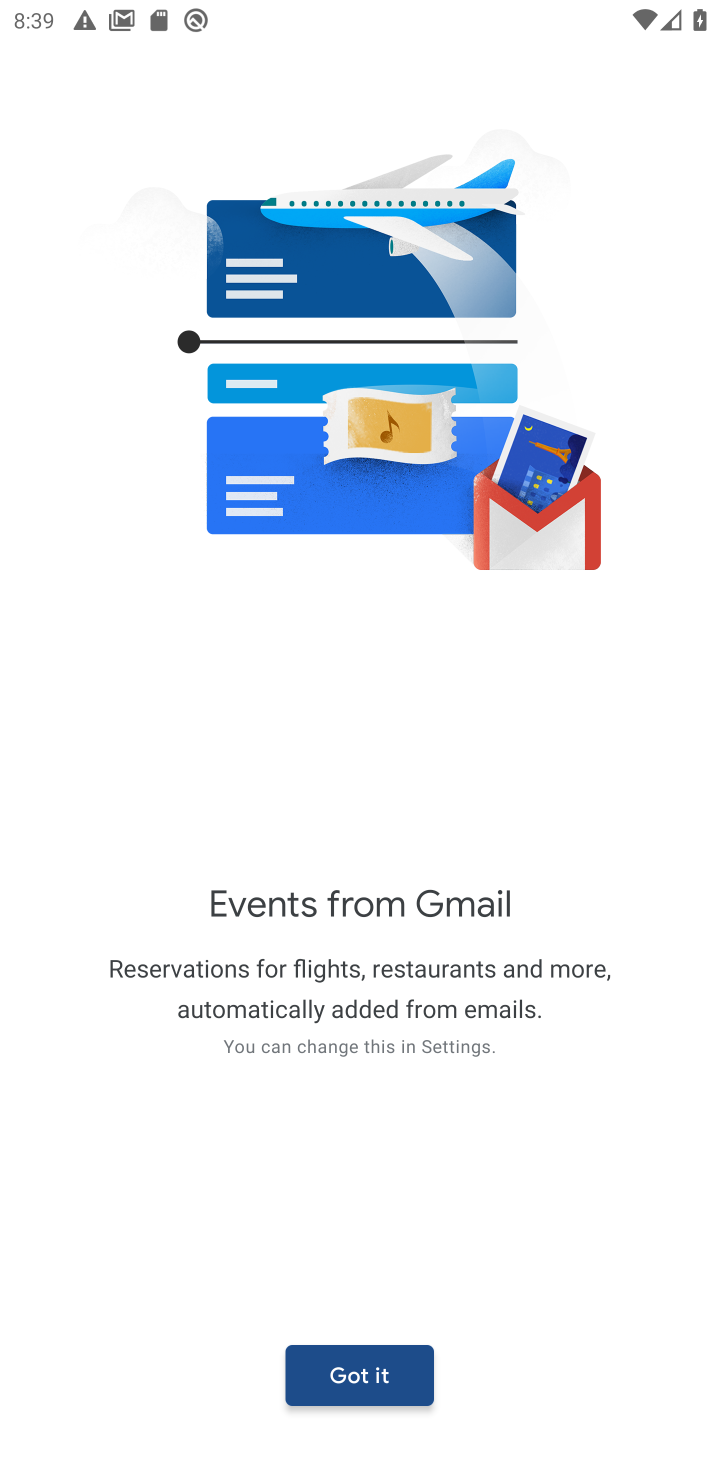
Step 30: click (368, 1377)
Your task to perform on an android device: Open calendar and show me the third week of next month Image 31: 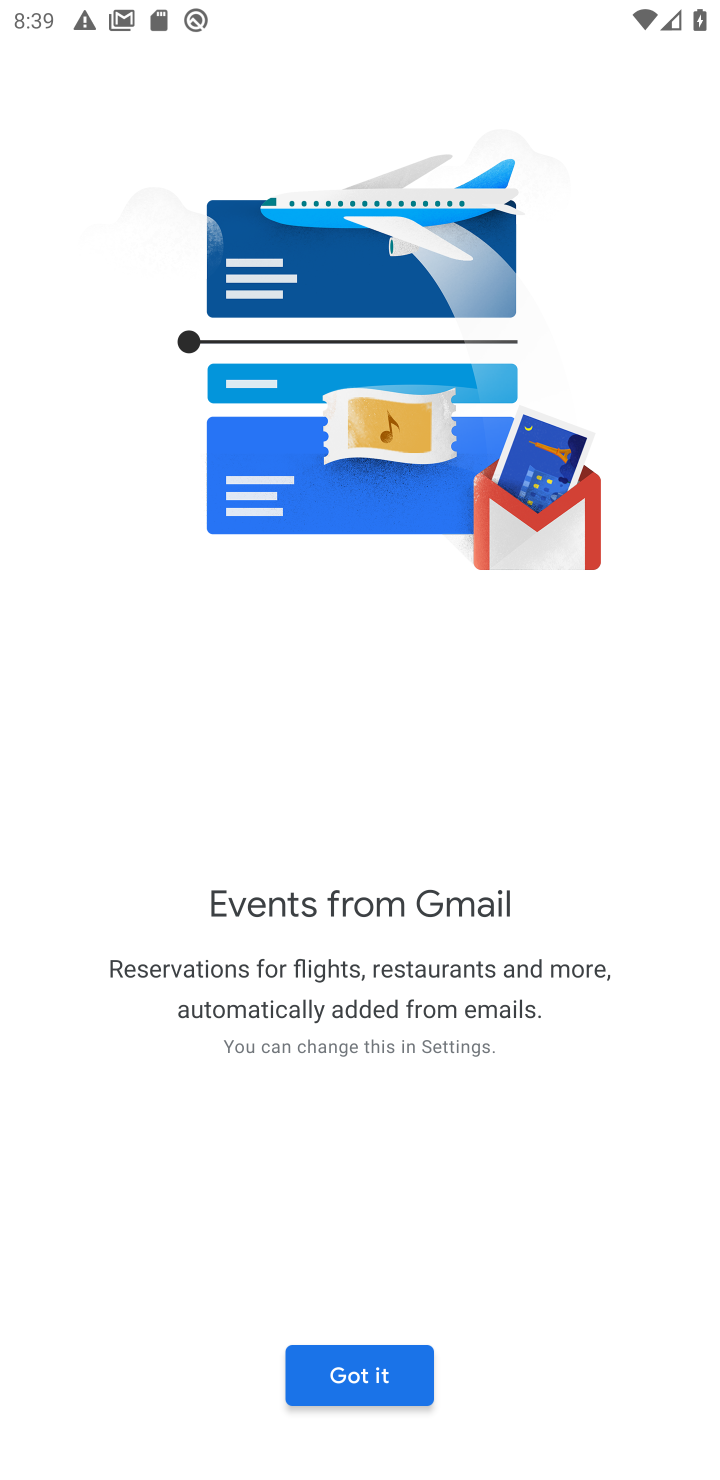
Step 31: click (374, 1383)
Your task to perform on an android device: Open calendar and show me the third week of next month Image 32: 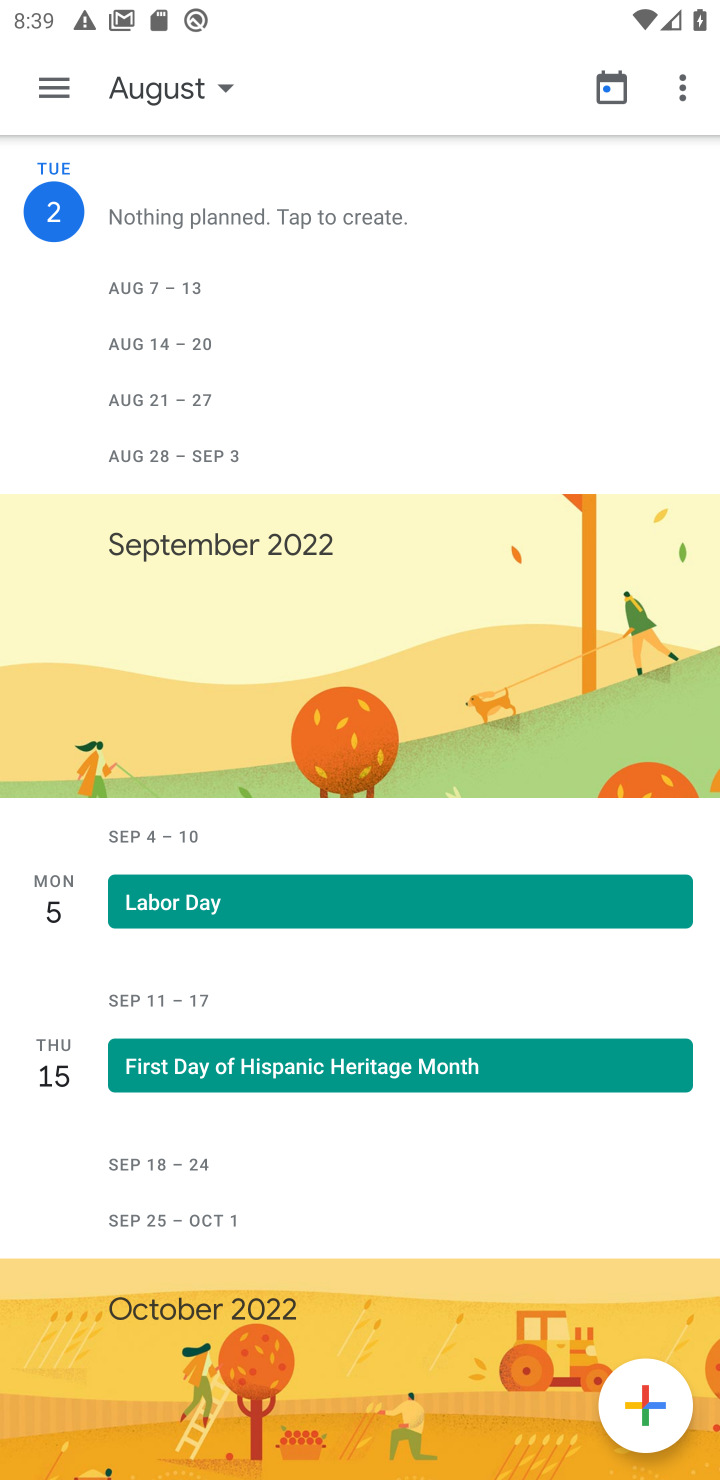
Step 32: click (229, 75)
Your task to perform on an android device: Open calendar and show me the third week of next month Image 33: 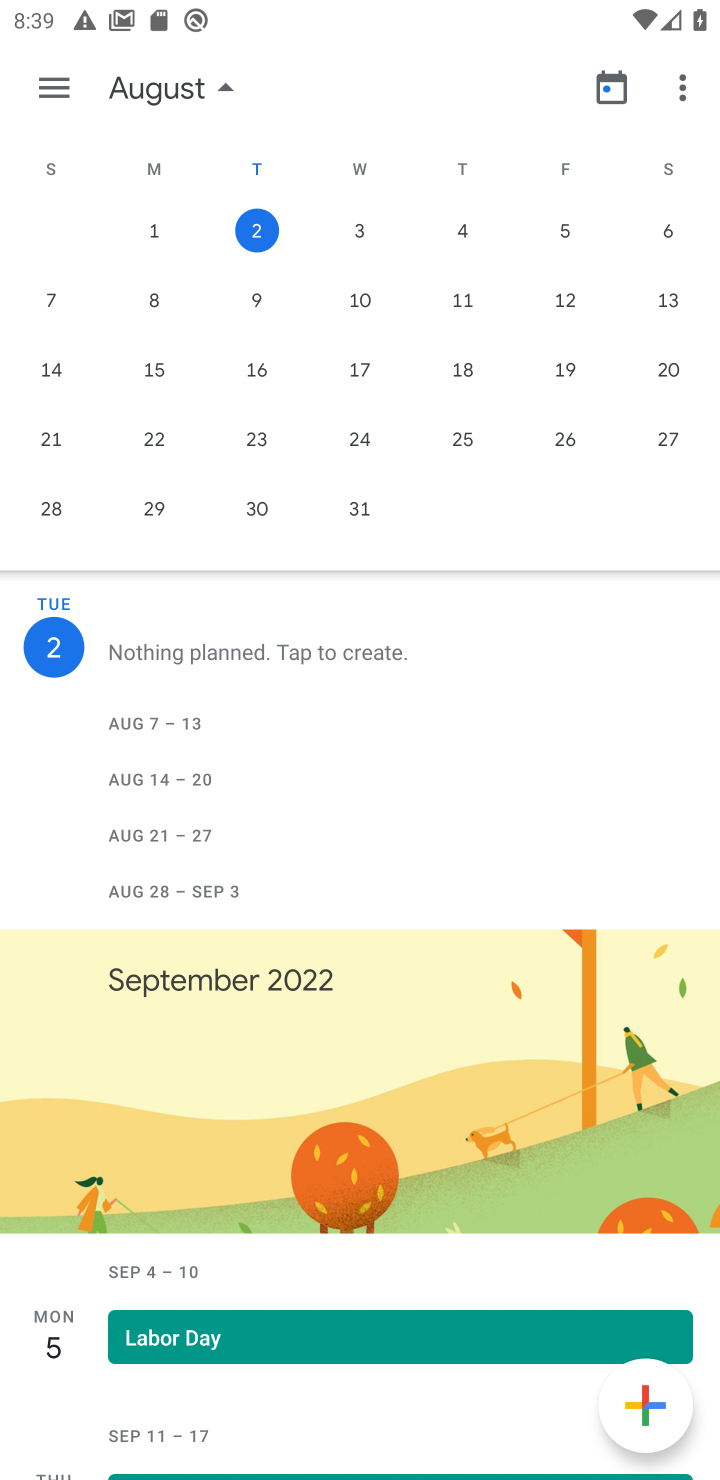
Step 33: drag from (647, 351) to (53, 215)
Your task to perform on an android device: Open calendar and show me the third week of next month Image 34: 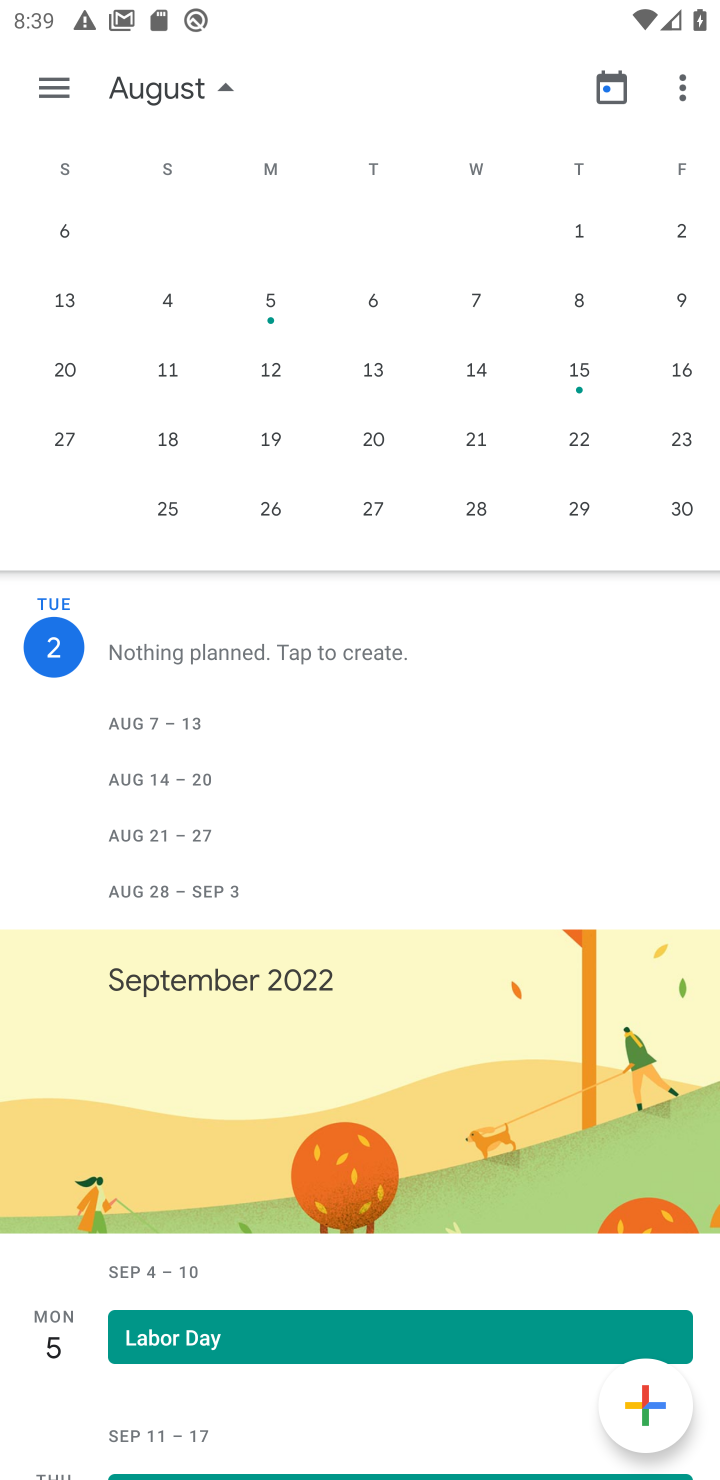
Step 34: drag from (159, 369) to (40, 323)
Your task to perform on an android device: Open calendar and show me the third week of next month Image 35: 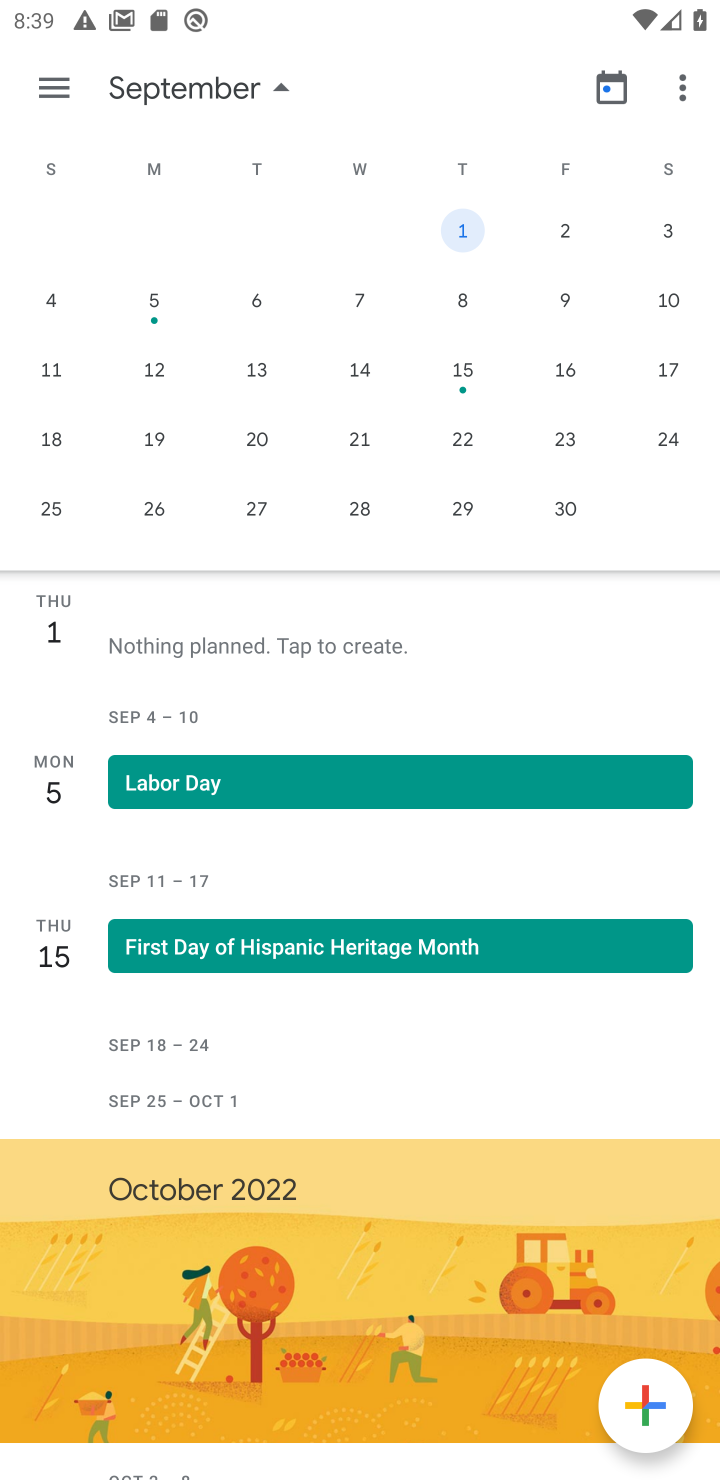
Step 35: click (574, 359)
Your task to perform on an android device: Open calendar and show me the third week of next month Image 36: 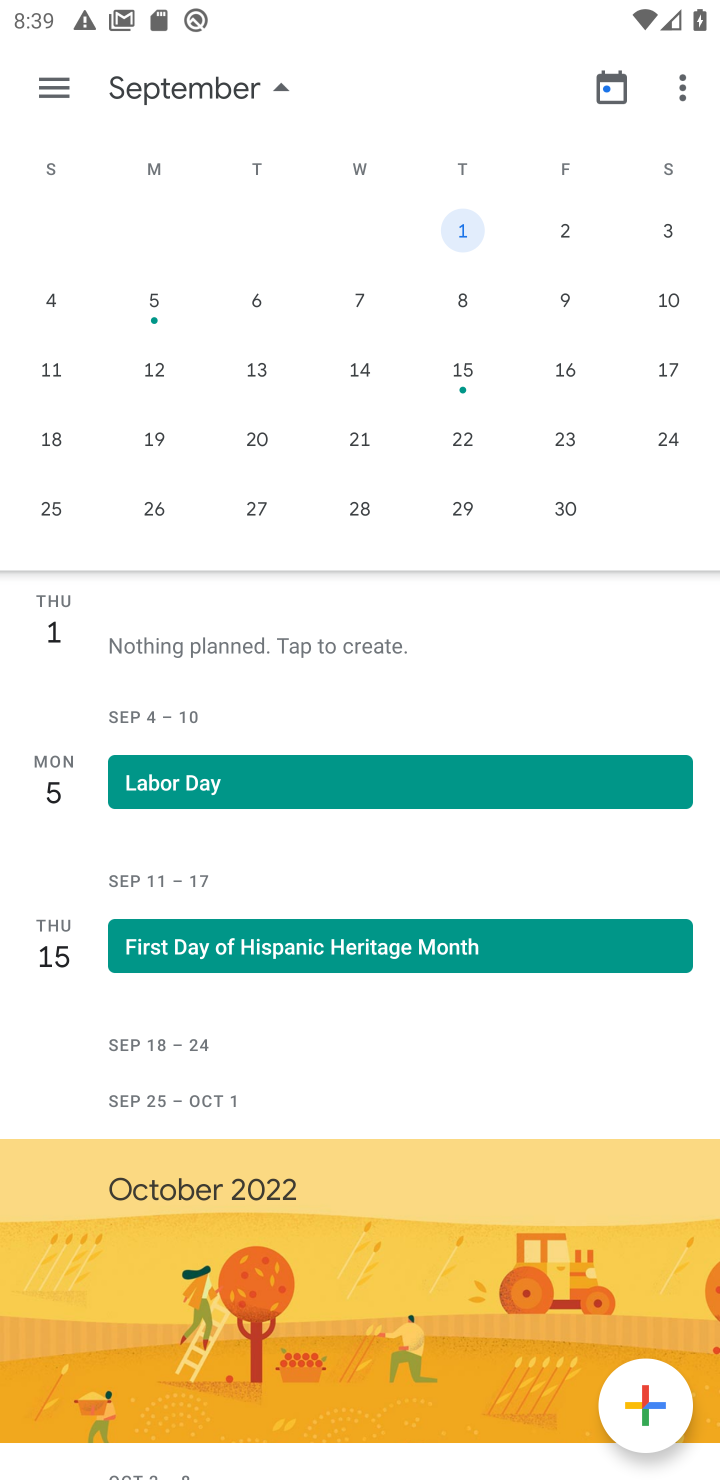
Step 36: click (572, 386)
Your task to perform on an android device: Open calendar and show me the third week of next month Image 37: 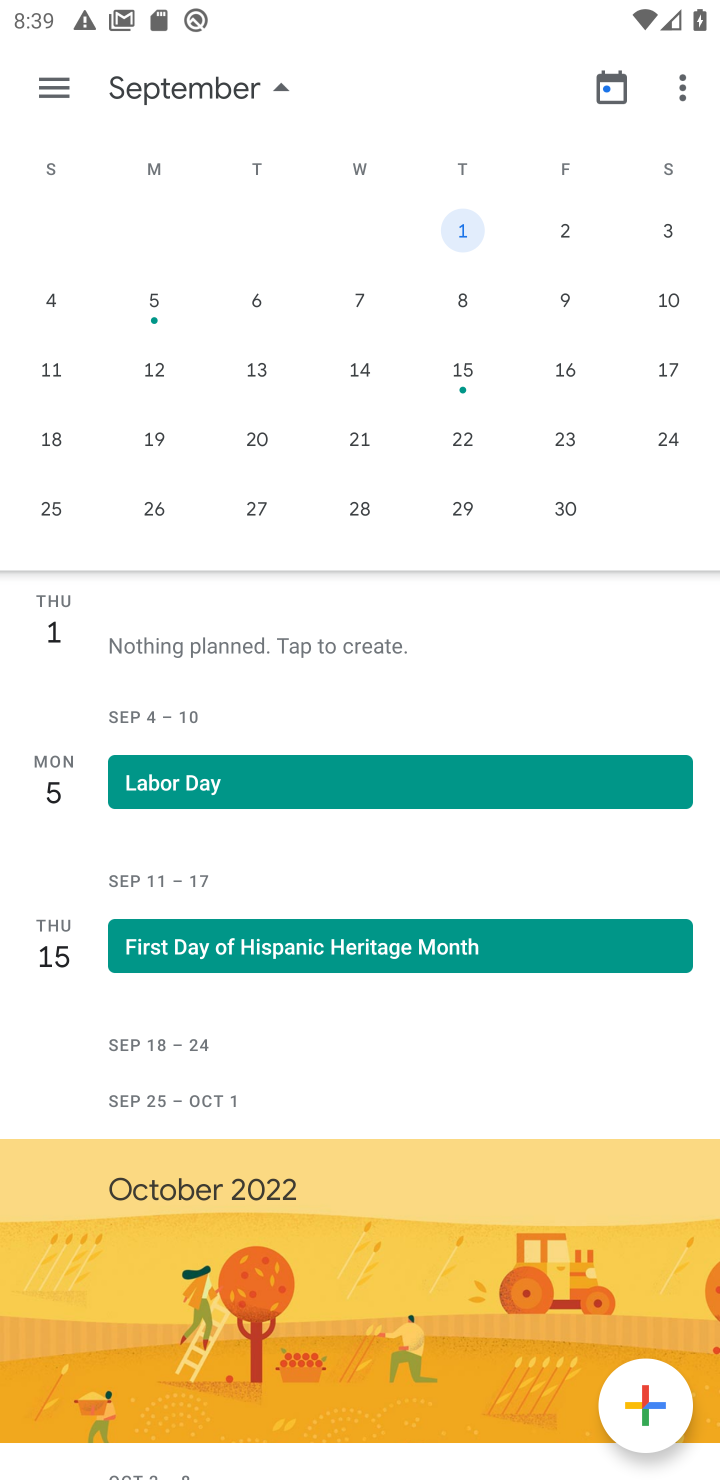
Step 37: click (572, 379)
Your task to perform on an android device: Open calendar and show me the third week of next month Image 38: 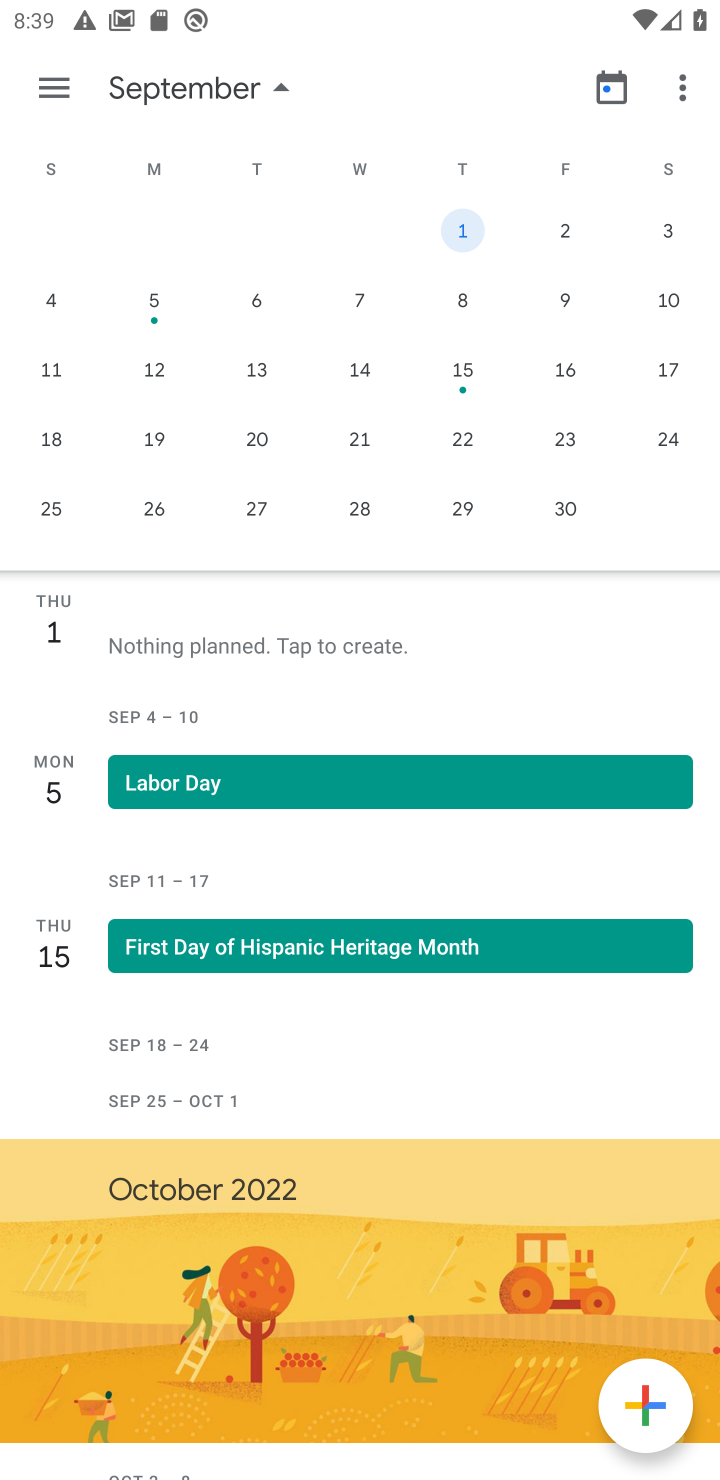
Step 38: click (453, 363)
Your task to perform on an android device: Open calendar and show me the third week of next month Image 39: 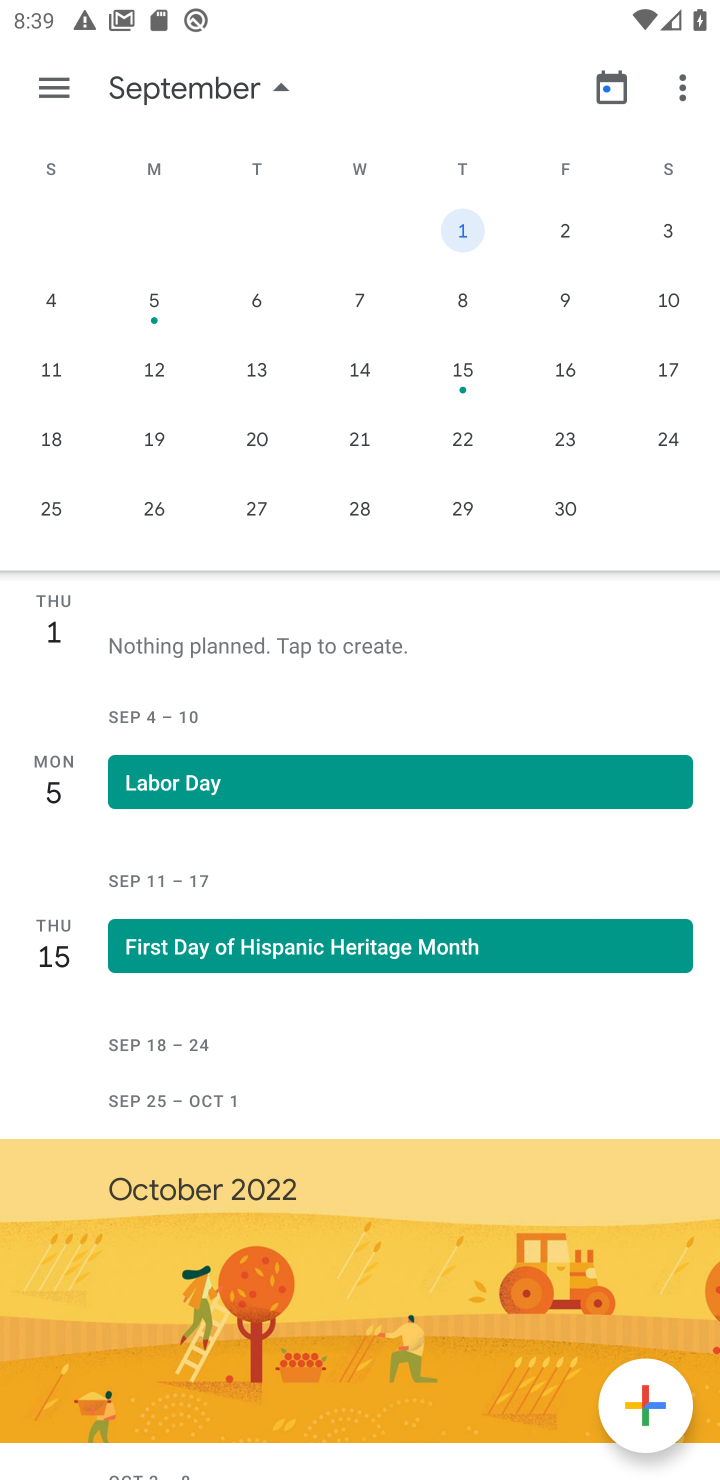
Step 39: click (455, 361)
Your task to perform on an android device: Open calendar and show me the third week of next month Image 40: 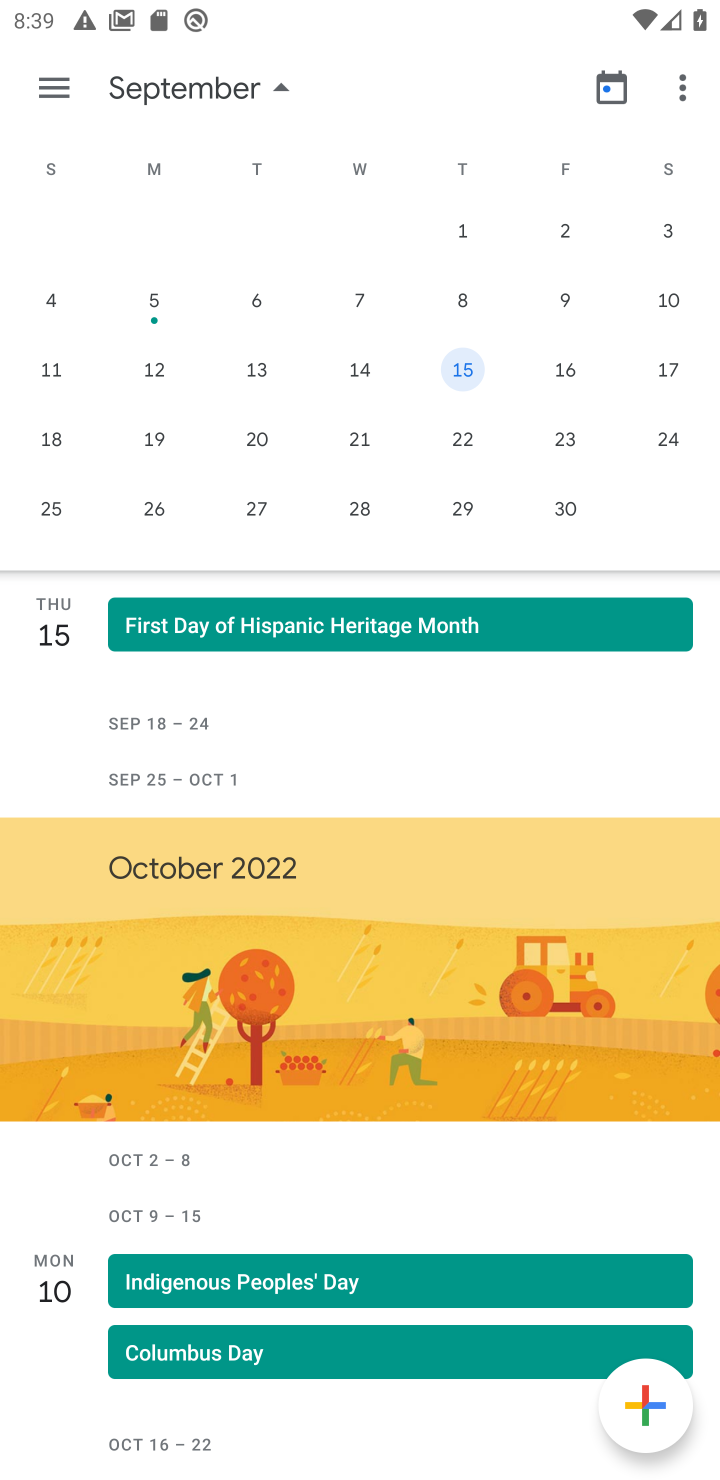
Step 40: click (463, 365)
Your task to perform on an android device: Open calendar and show me the third week of next month Image 41: 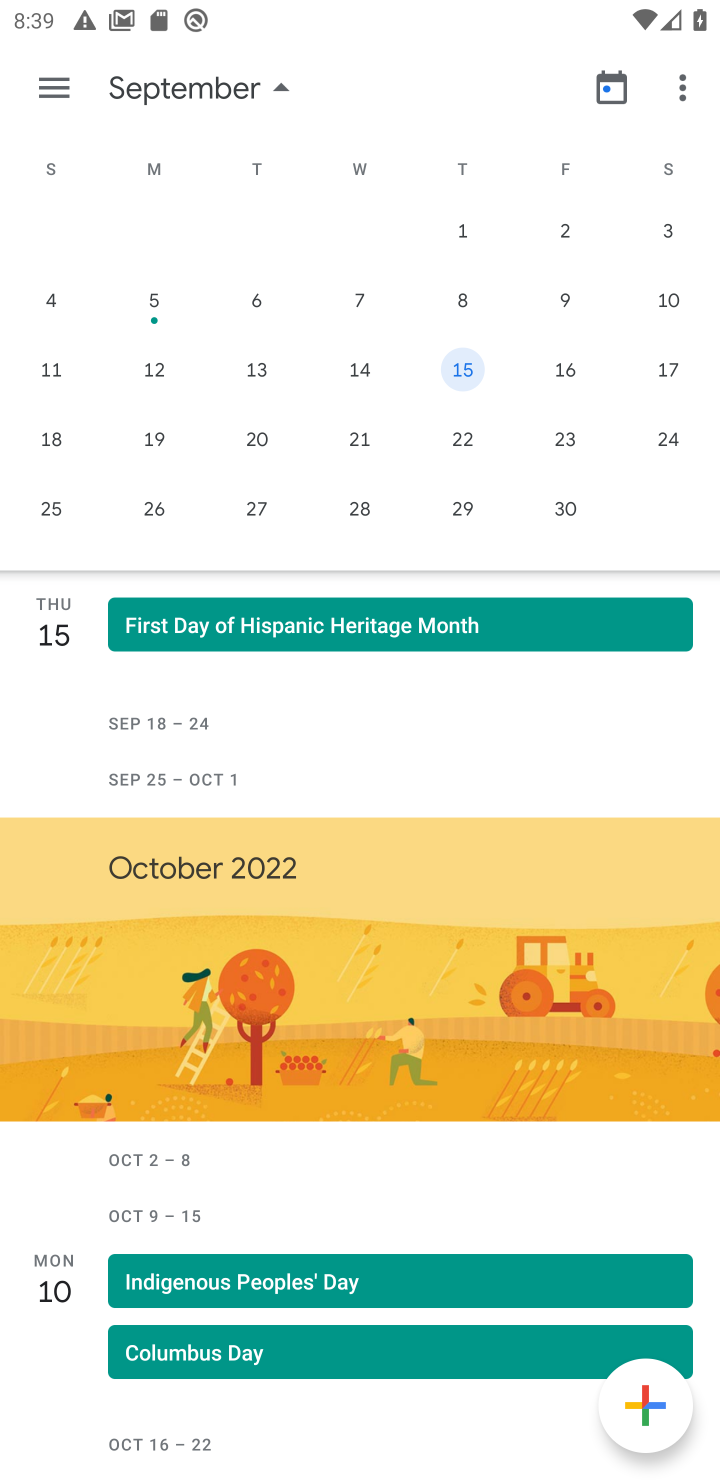
Step 41: task complete